Your task to perform on an android device: install app "Venmo" Image 0: 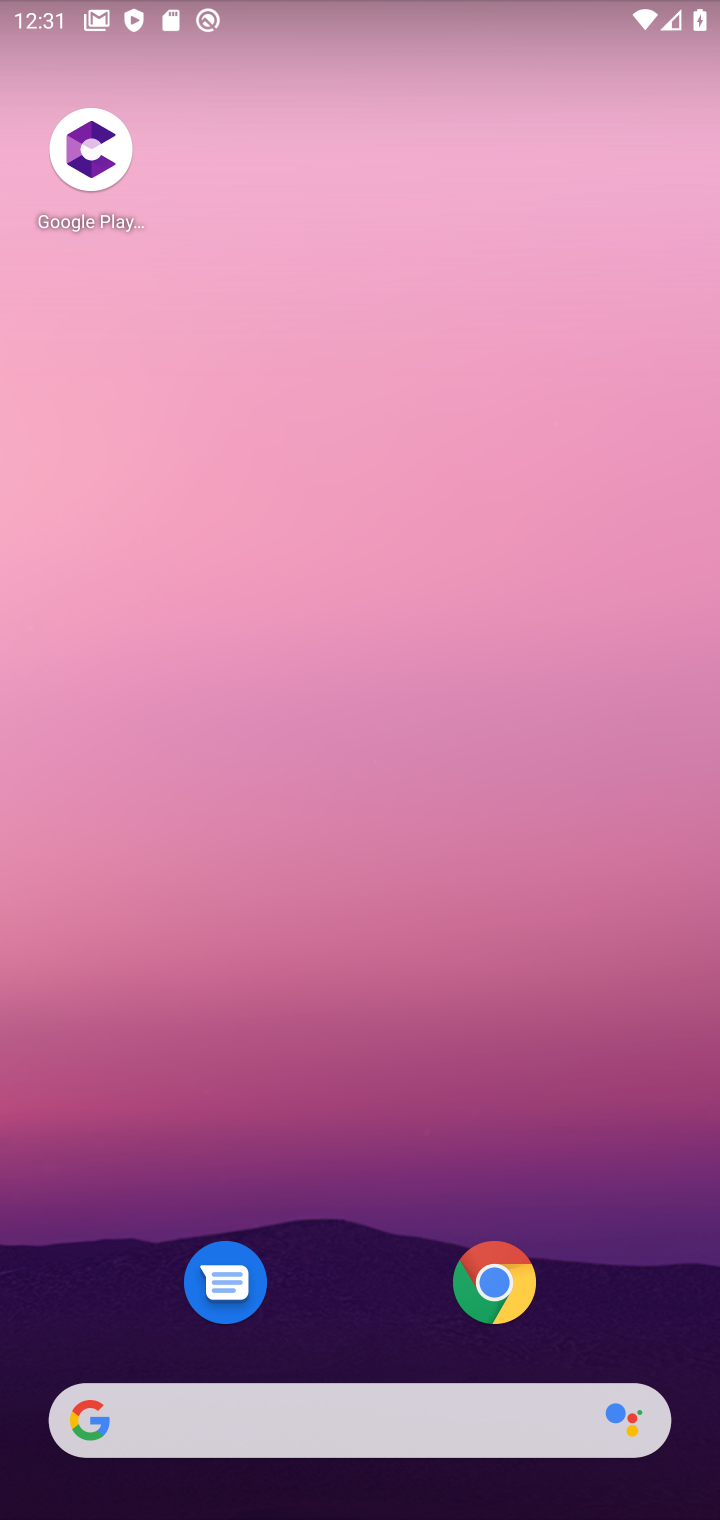
Step 0: drag from (356, 1447) to (284, 418)
Your task to perform on an android device: install app "Venmo" Image 1: 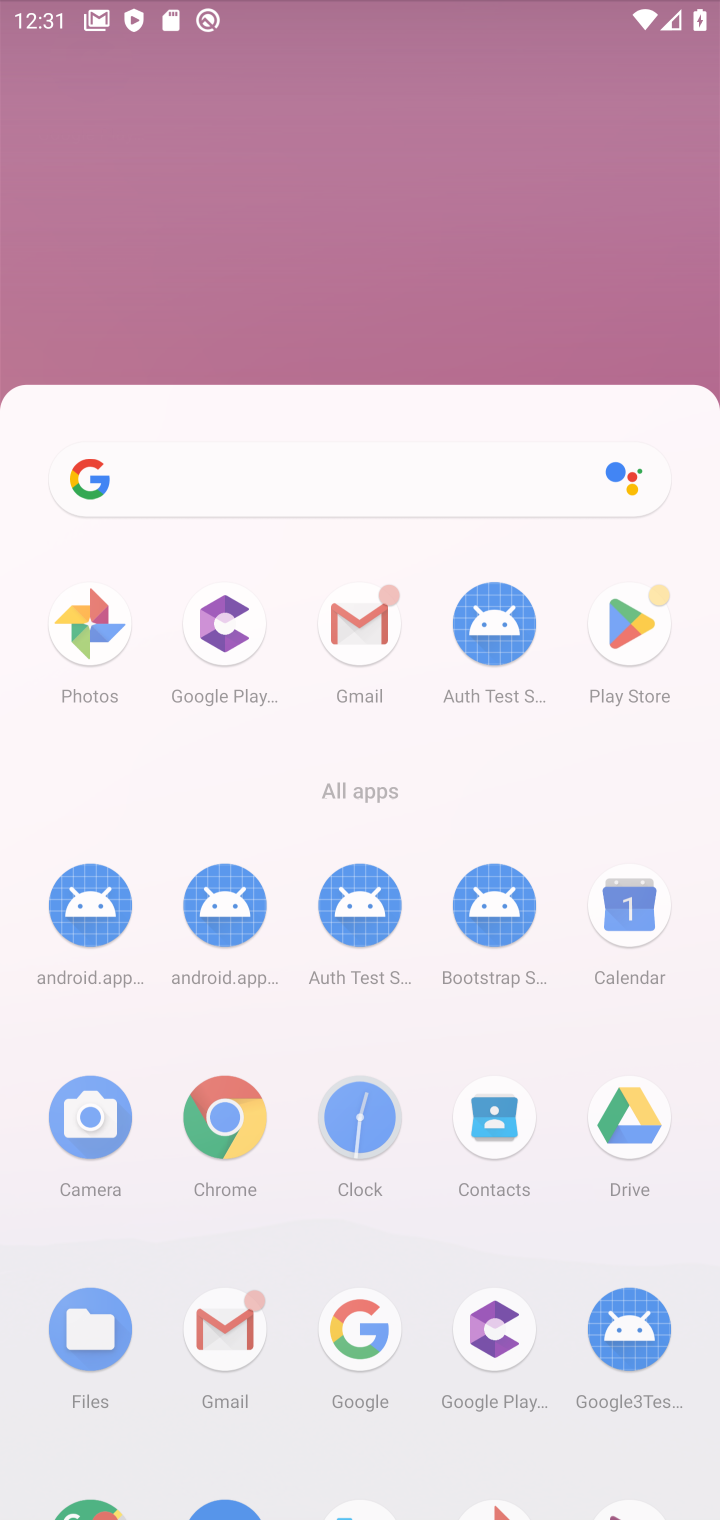
Step 1: drag from (344, 1146) to (278, 416)
Your task to perform on an android device: install app "Venmo" Image 2: 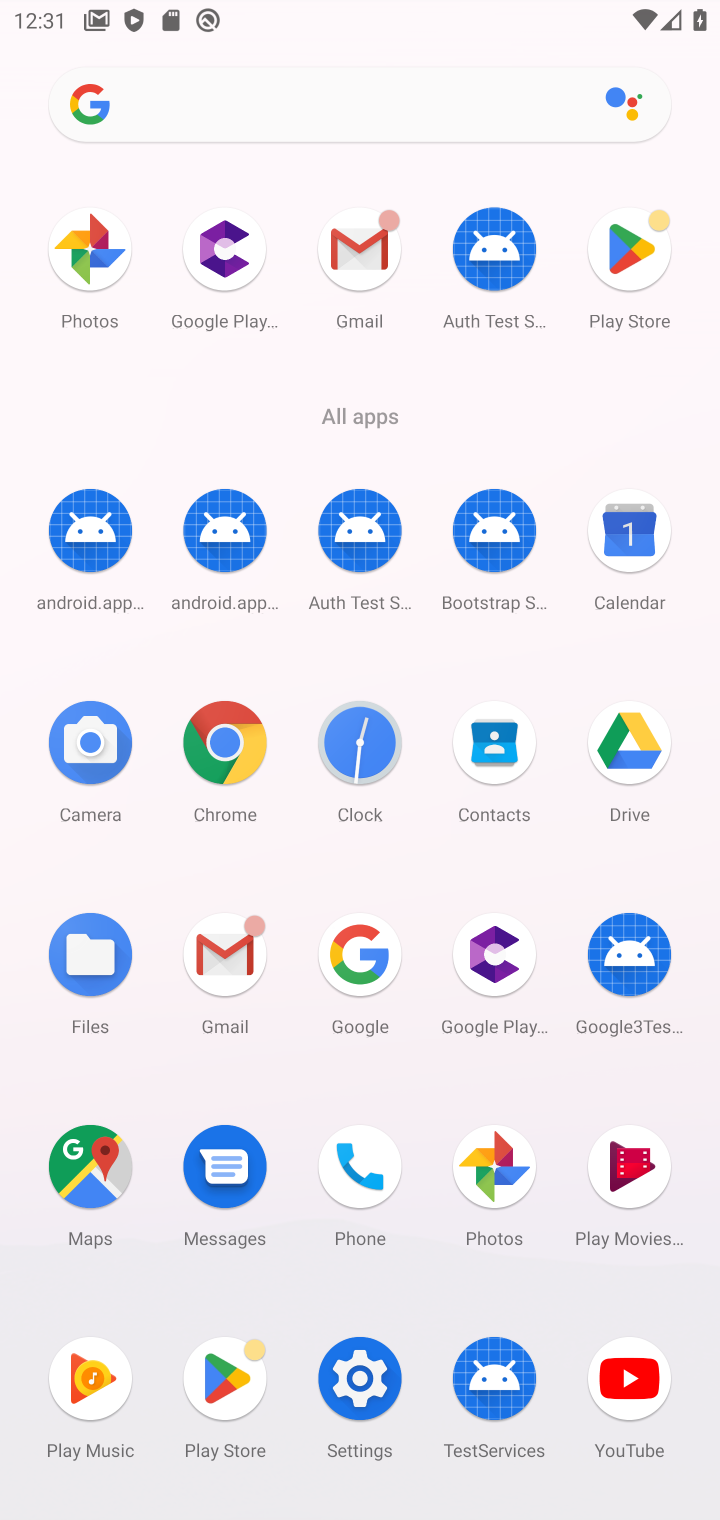
Step 2: click (619, 217)
Your task to perform on an android device: install app "Venmo" Image 3: 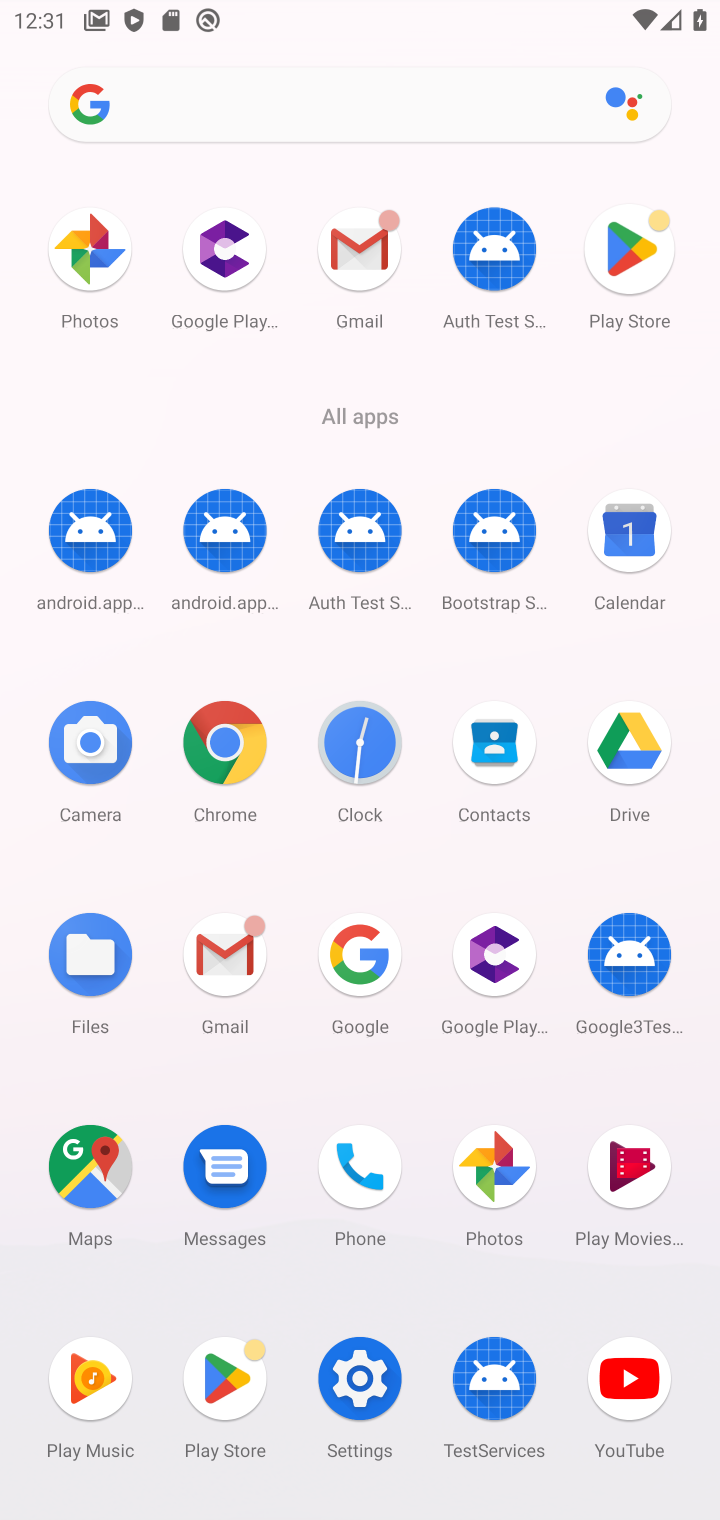
Step 3: click (636, 254)
Your task to perform on an android device: install app "Venmo" Image 4: 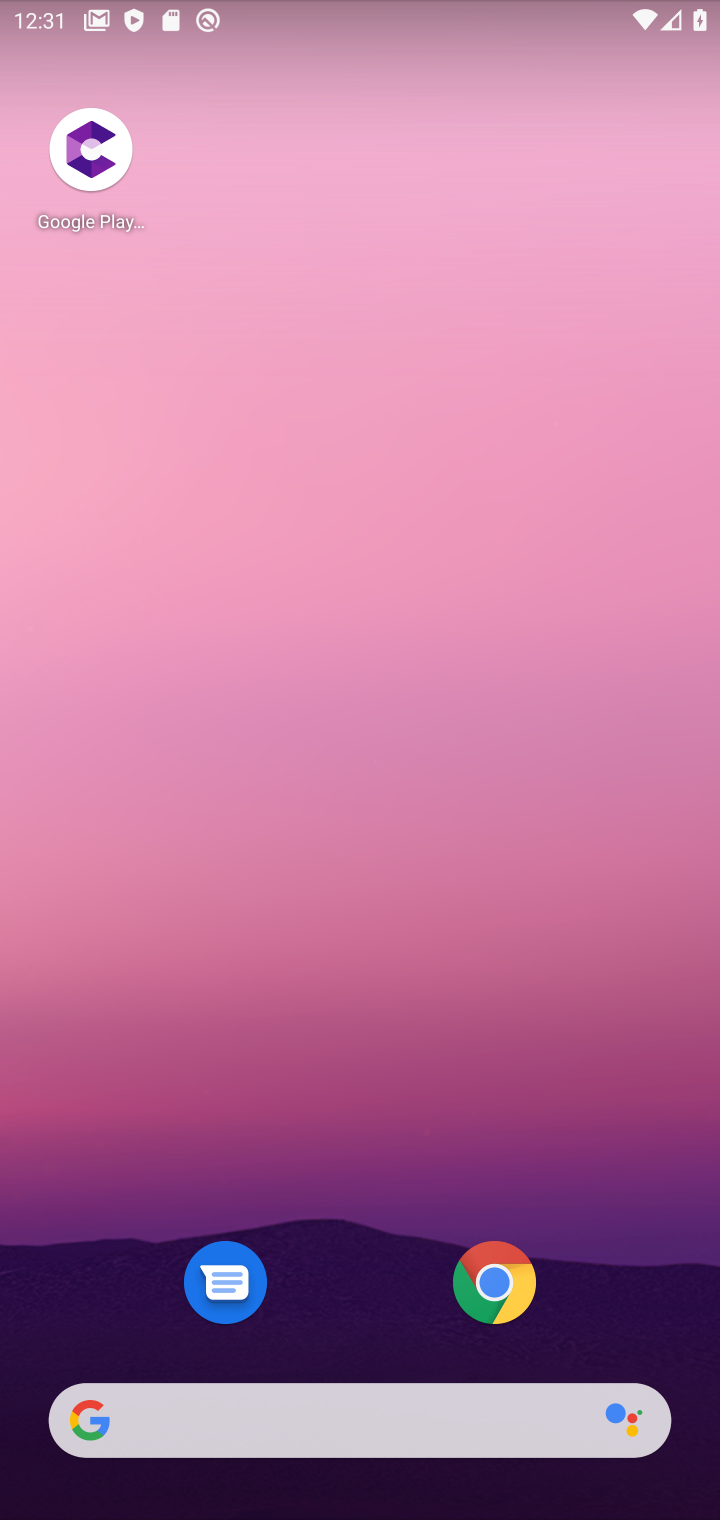
Step 4: click (632, 251)
Your task to perform on an android device: install app "Venmo" Image 5: 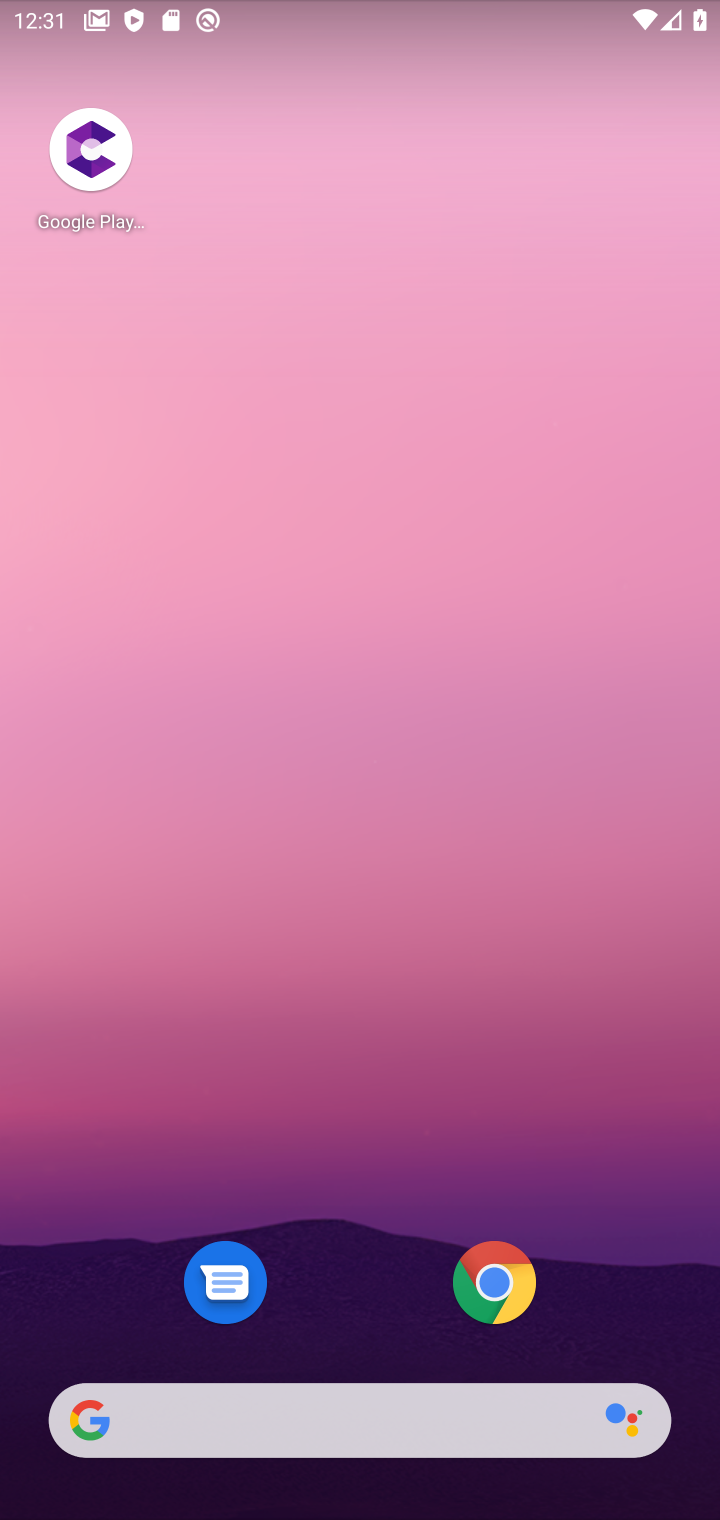
Step 5: drag from (423, 1353) to (198, 240)
Your task to perform on an android device: install app "Venmo" Image 6: 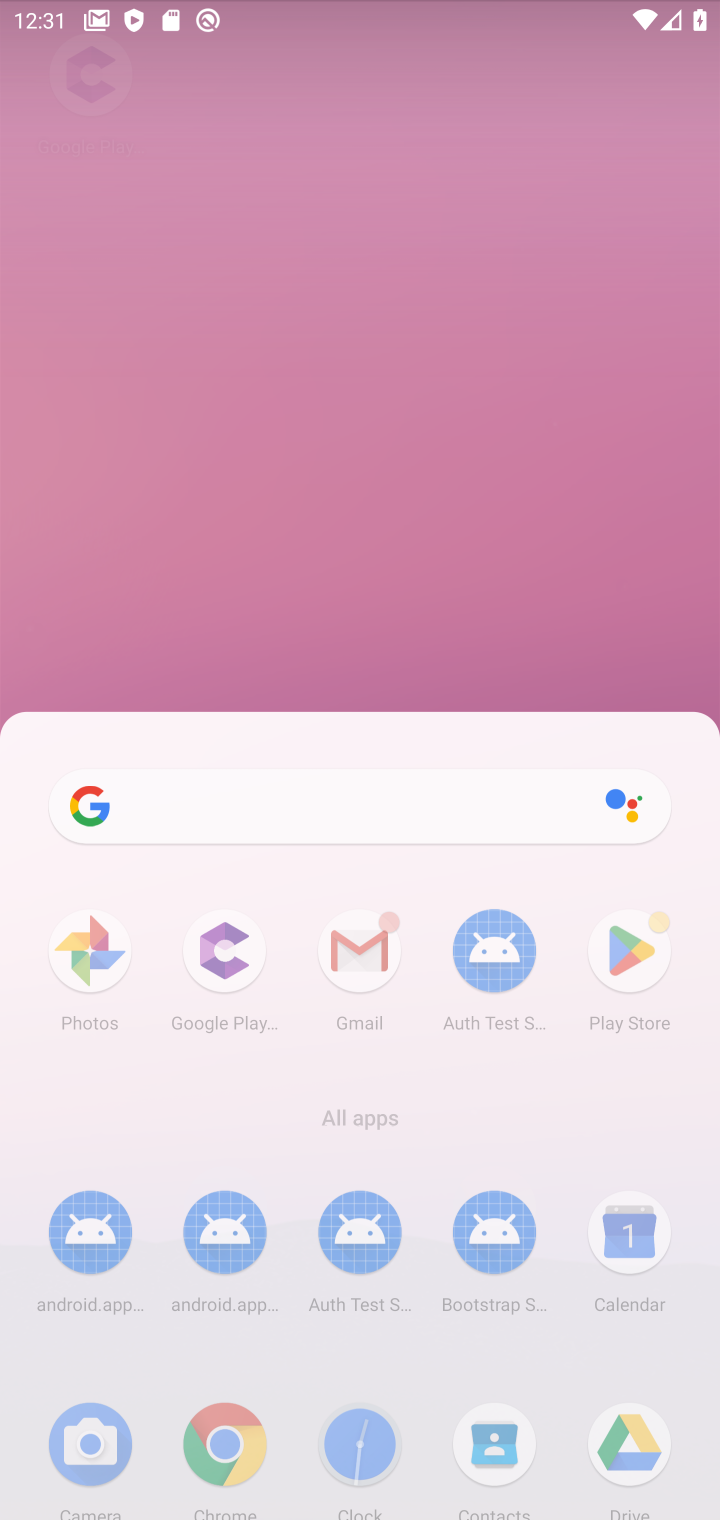
Step 6: drag from (292, 397) to (246, 319)
Your task to perform on an android device: install app "Venmo" Image 7: 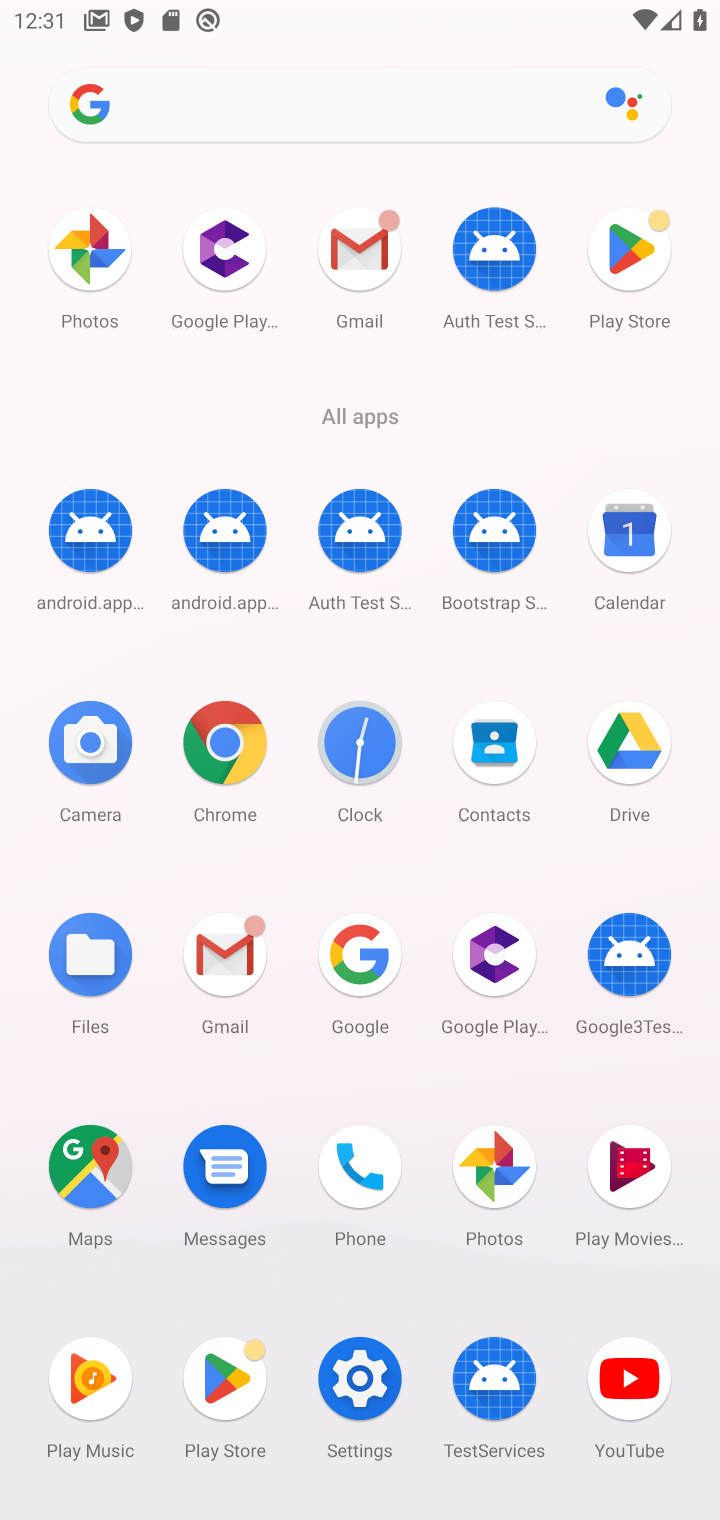
Step 7: drag from (312, 786) to (247, 334)
Your task to perform on an android device: install app "Venmo" Image 8: 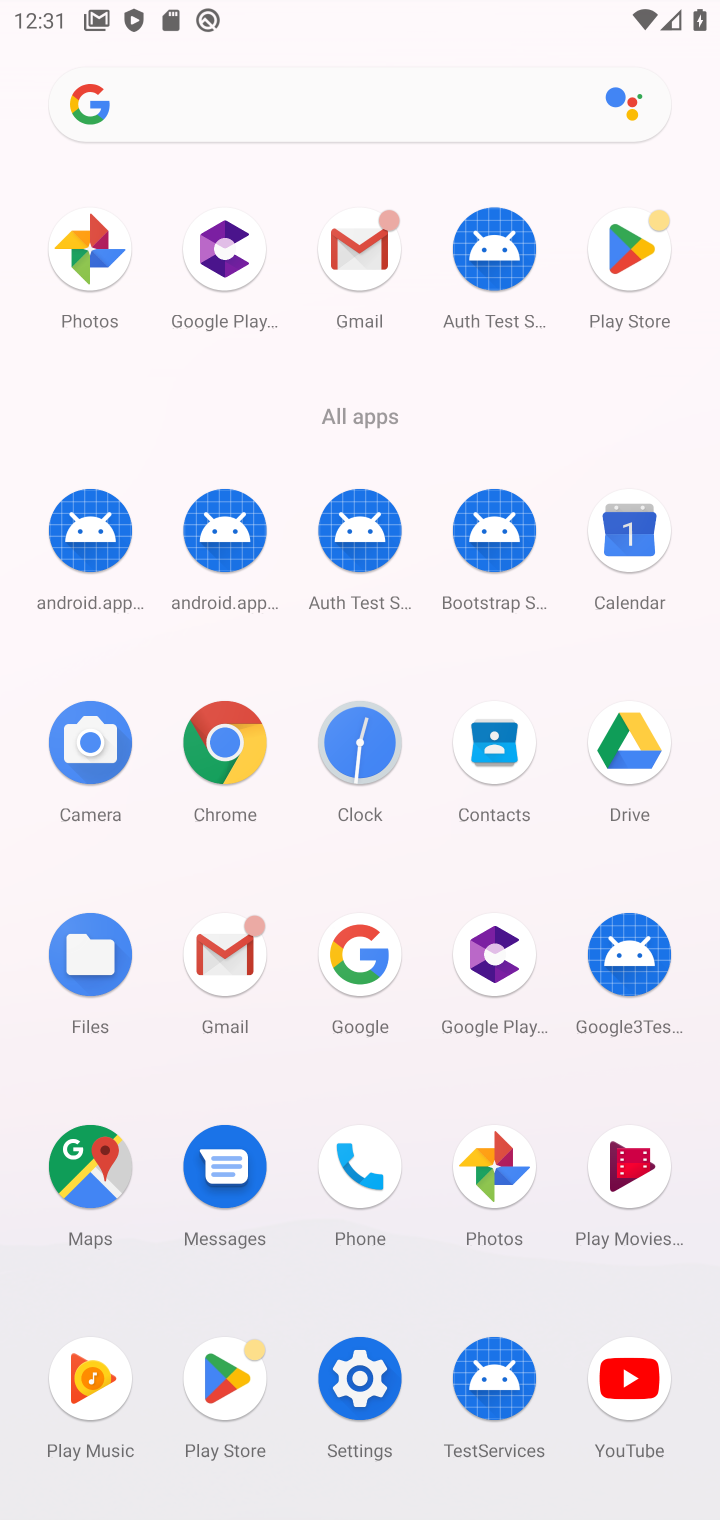
Step 8: drag from (338, 787) to (303, 452)
Your task to perform on an android device: install app "Venmo" Image 9: 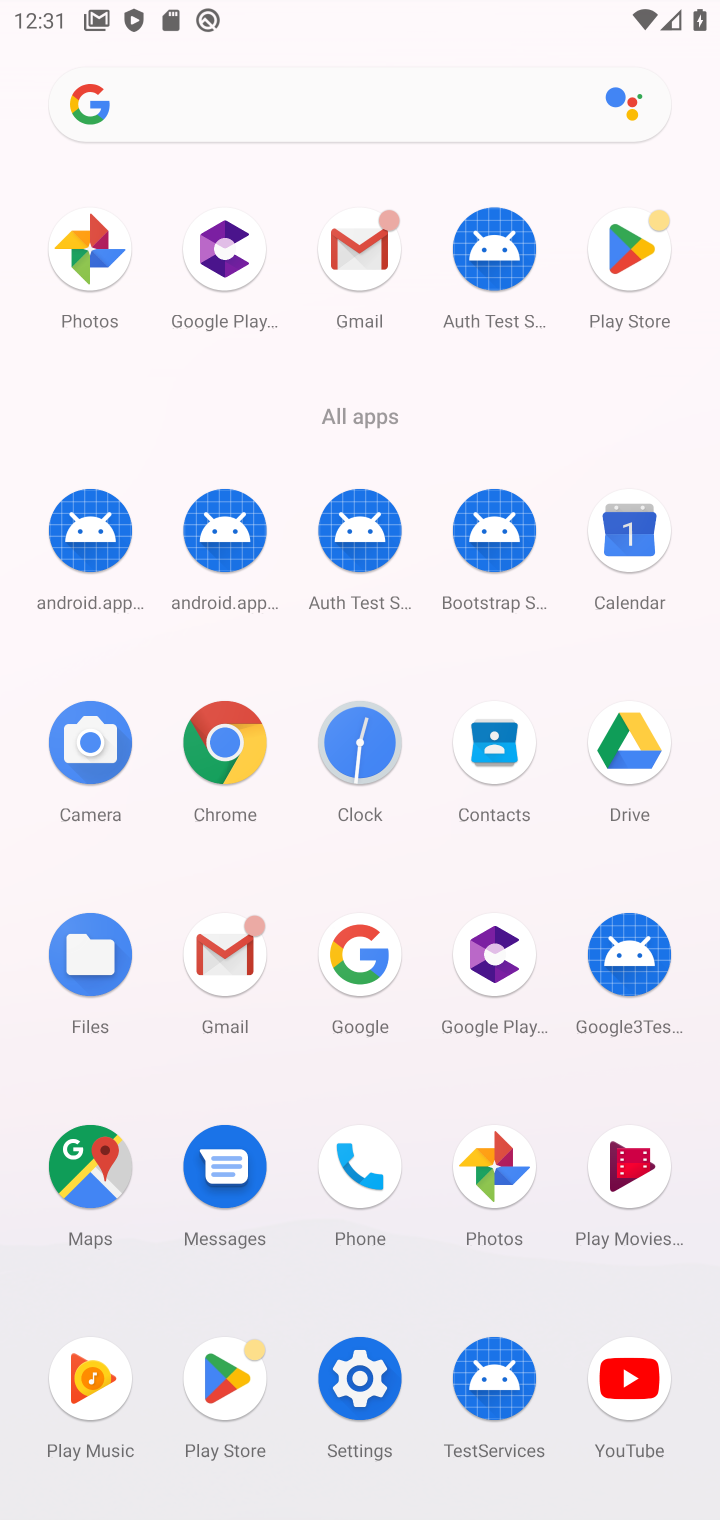
Step 9: click (619, 238)
Your task to perform on an android device: install app "Venmo" Image 10: 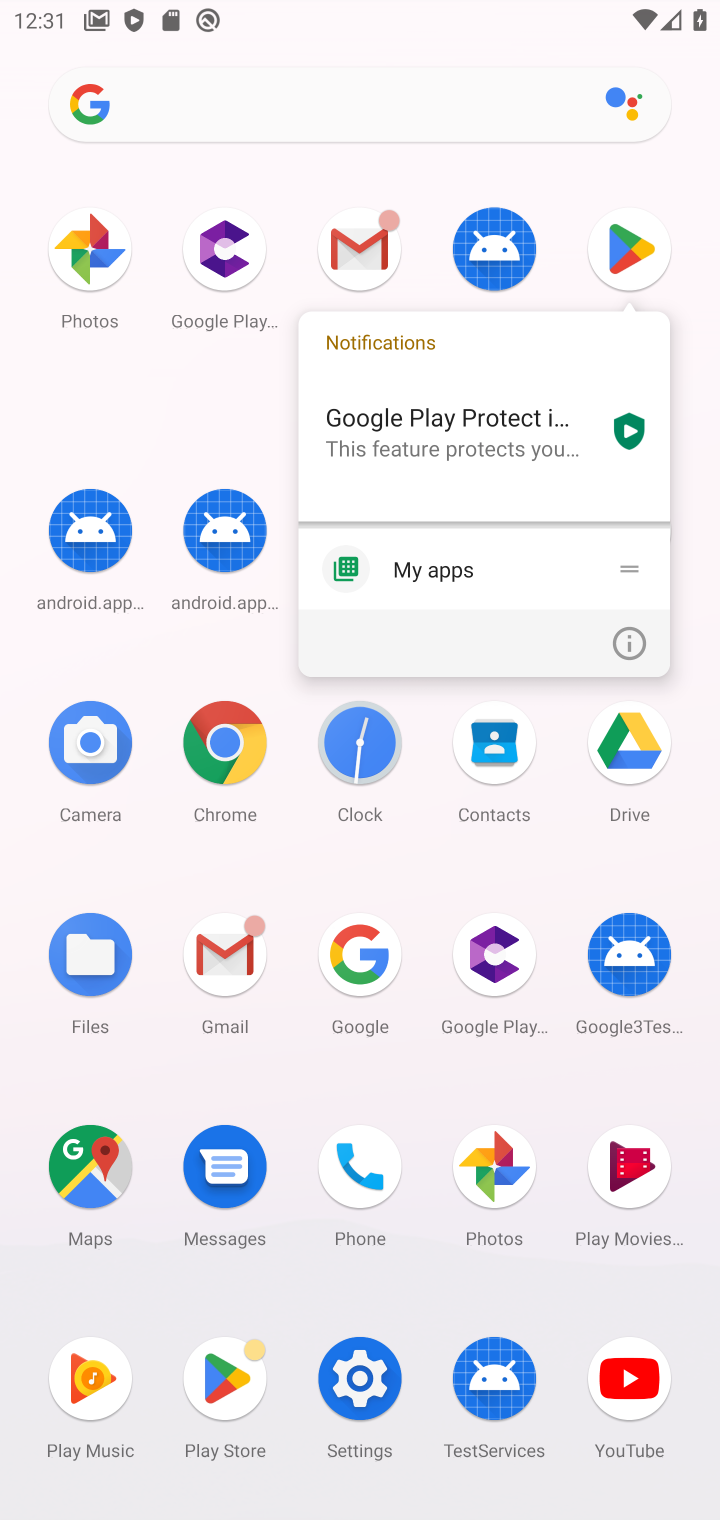
Step 10: click (619, 242)
Your task to perform on an android device: install app "Venmo" Image 11: 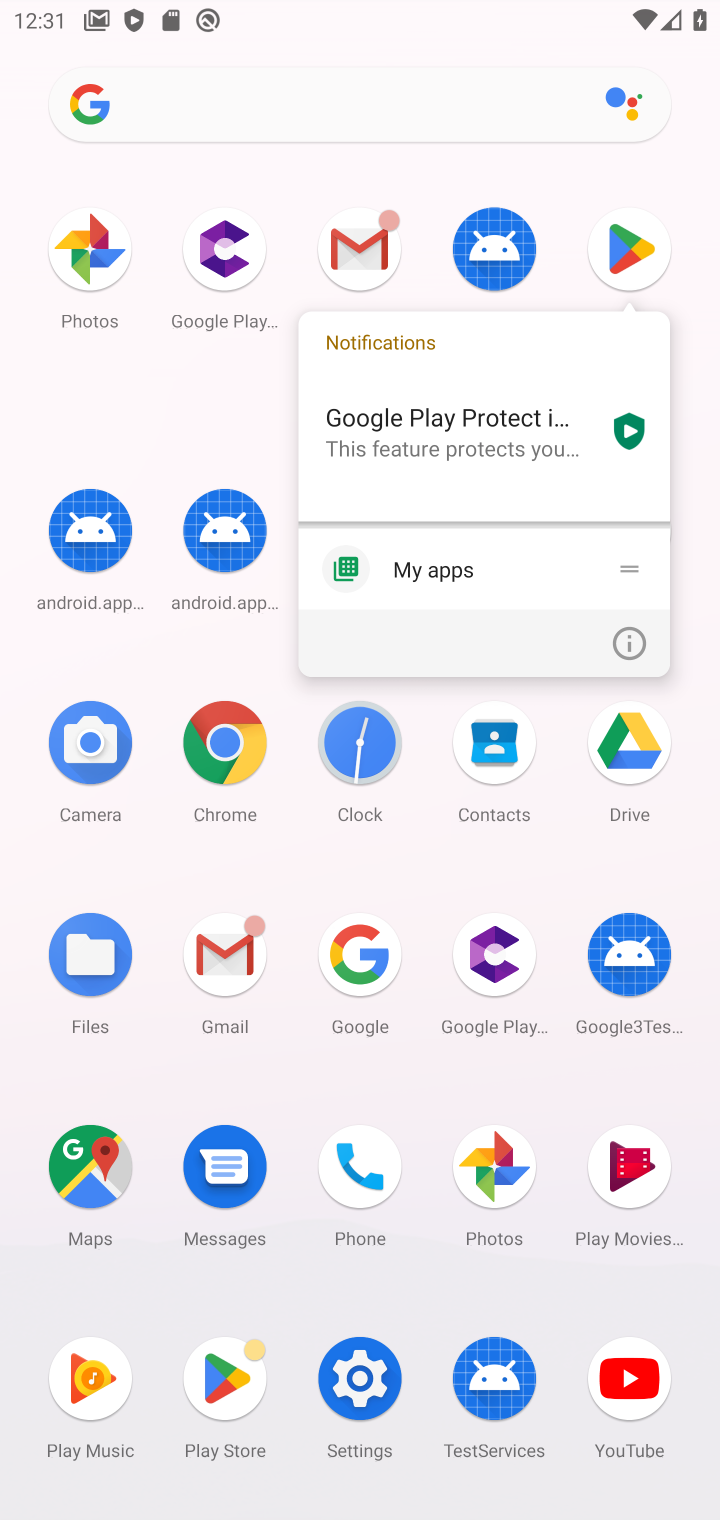
Step 11: click (621, 244)
Your task to perform on an android device: install app "Venmo" Image 12: 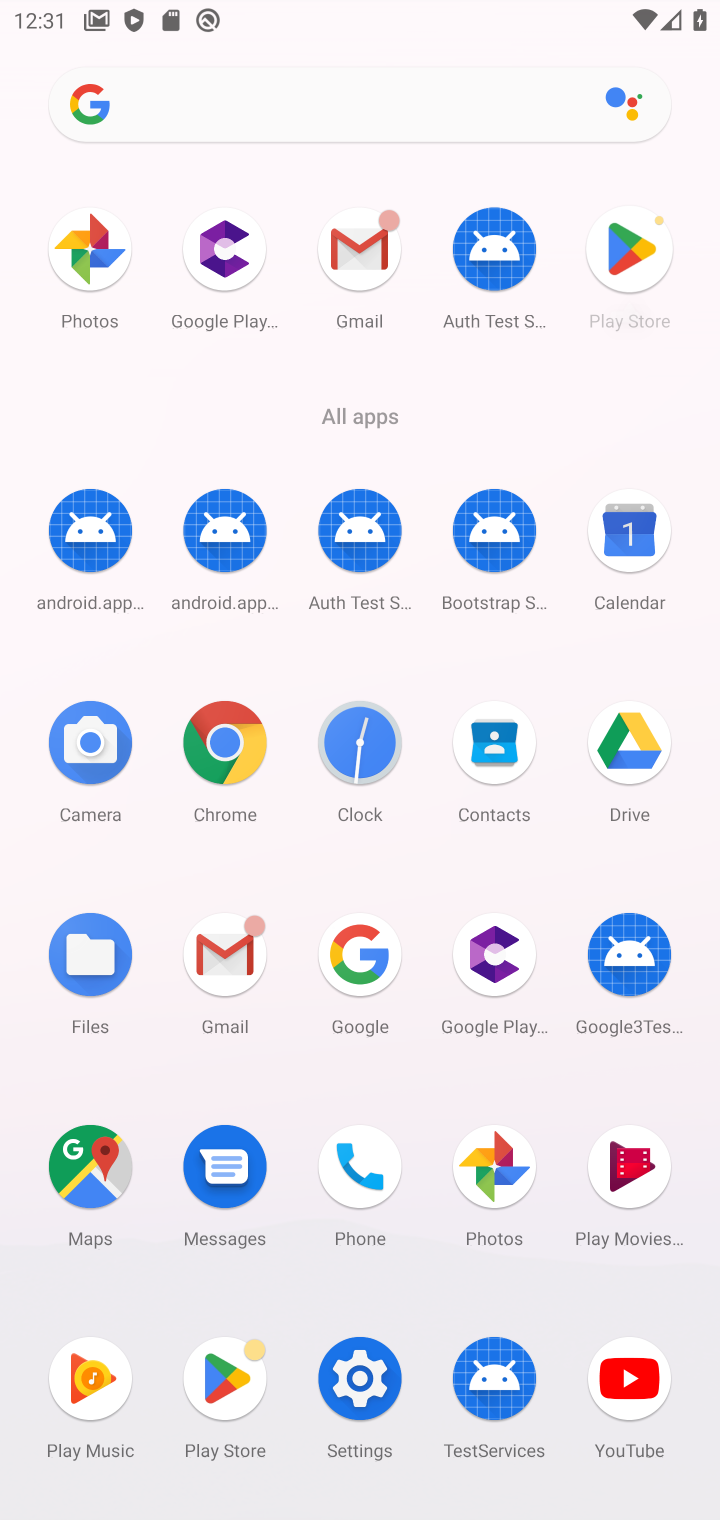
Step 12: click (623, 248)
Your task to perform on an android device: install app "Venmo" Image 13: 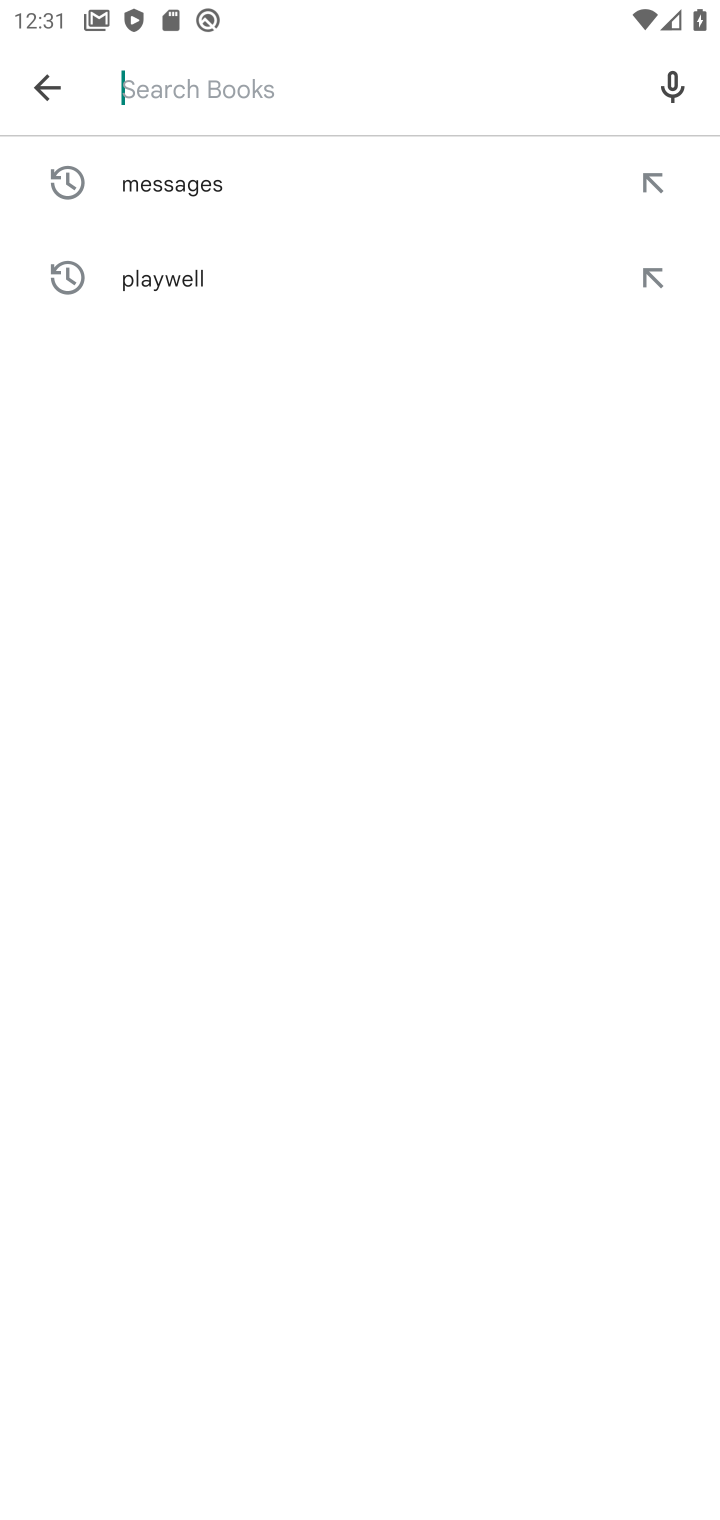
Step 13: click (632, 265)
Your task to perform on an android device: install app "Venmo" Image 14: 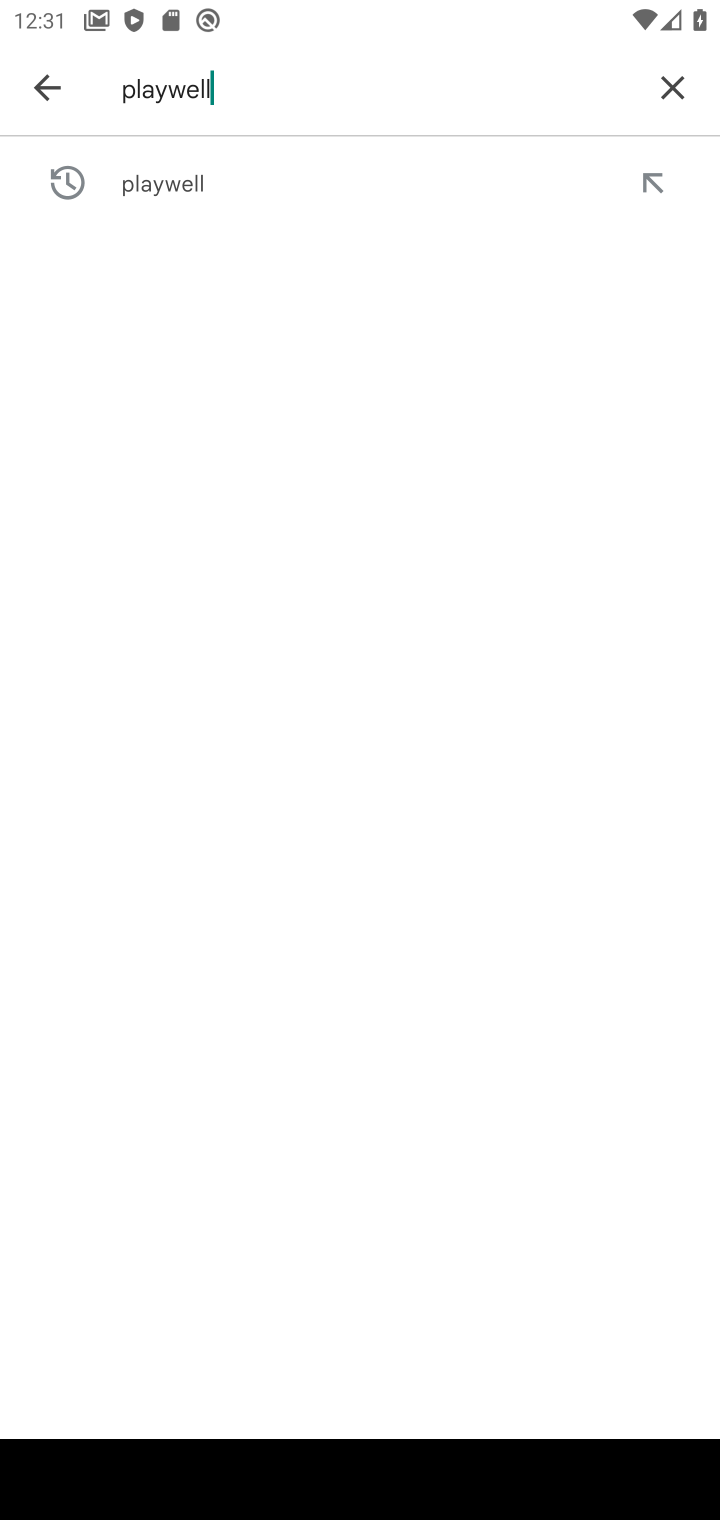
Step 14: type "Venmo"
Your task to perform on an android device: install app "Venmo" Image 15: 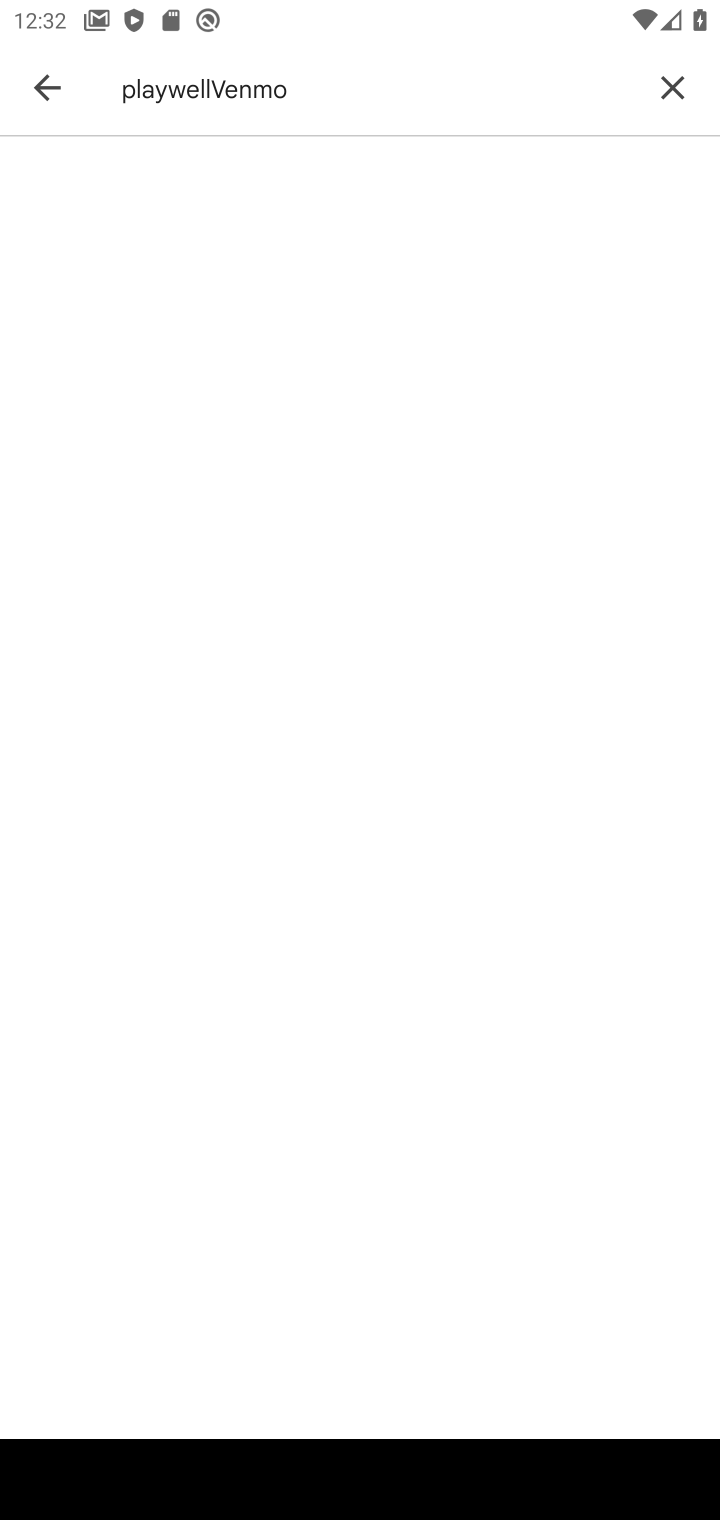
Step 15: click (674, 73)
Your task to perform on an android device: install app "Venmo" Image 16: 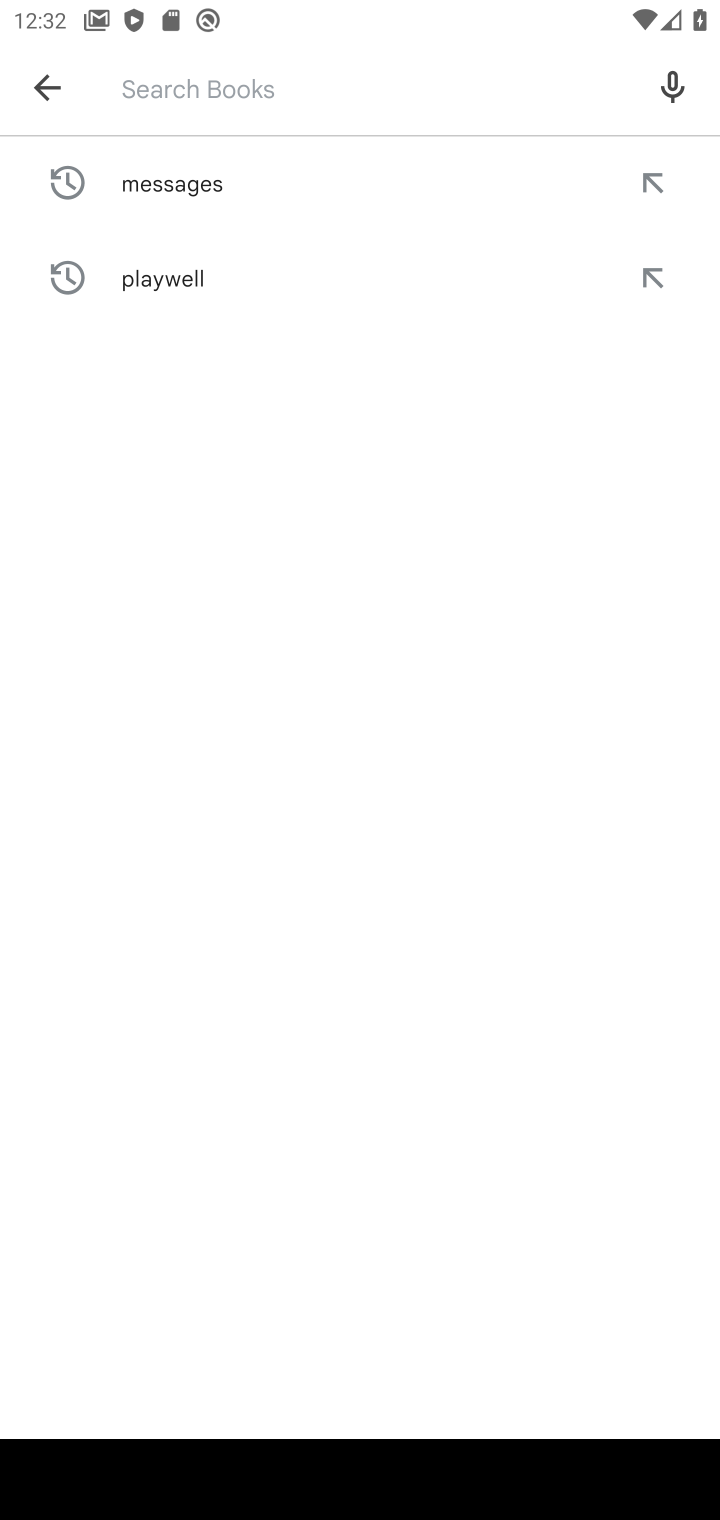
Step 16: type "Venmo"
Your task to perform on an android device: install app "Venmo" Image 17: 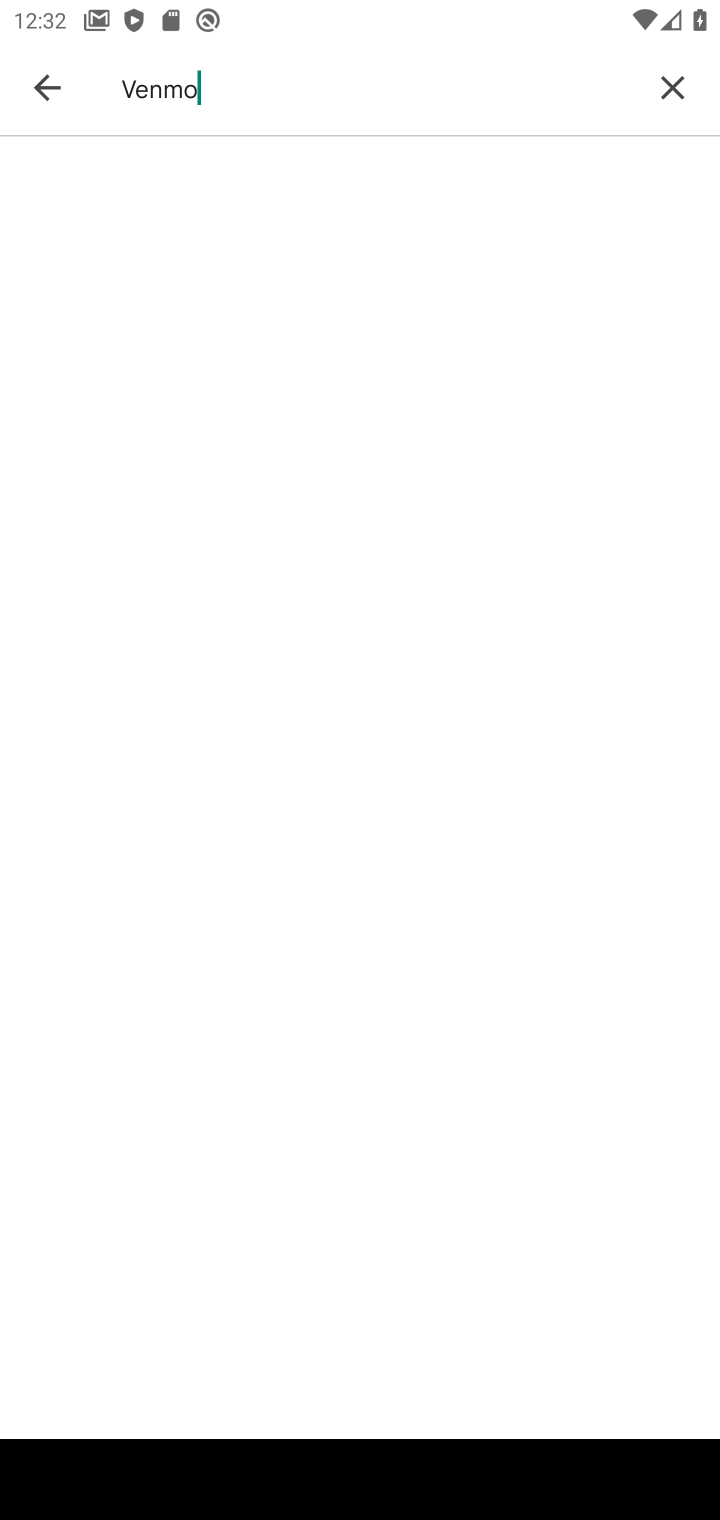
Step 17: click (187, 112)
Your task to perform on an android device: install app "Venmo" Image 18: 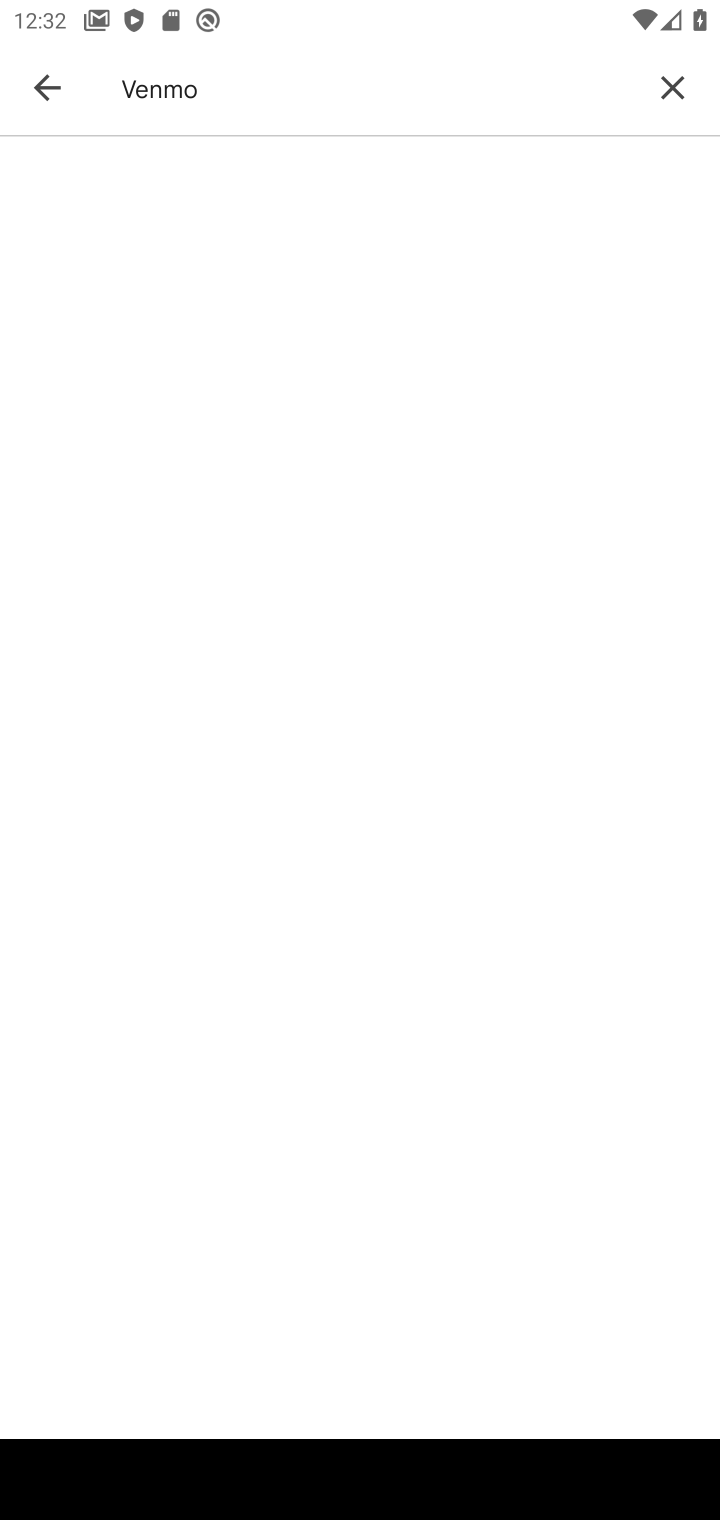
Step 18: click (184, 109)
Your task to perform on an android device: install app "Venmo" Image 19: 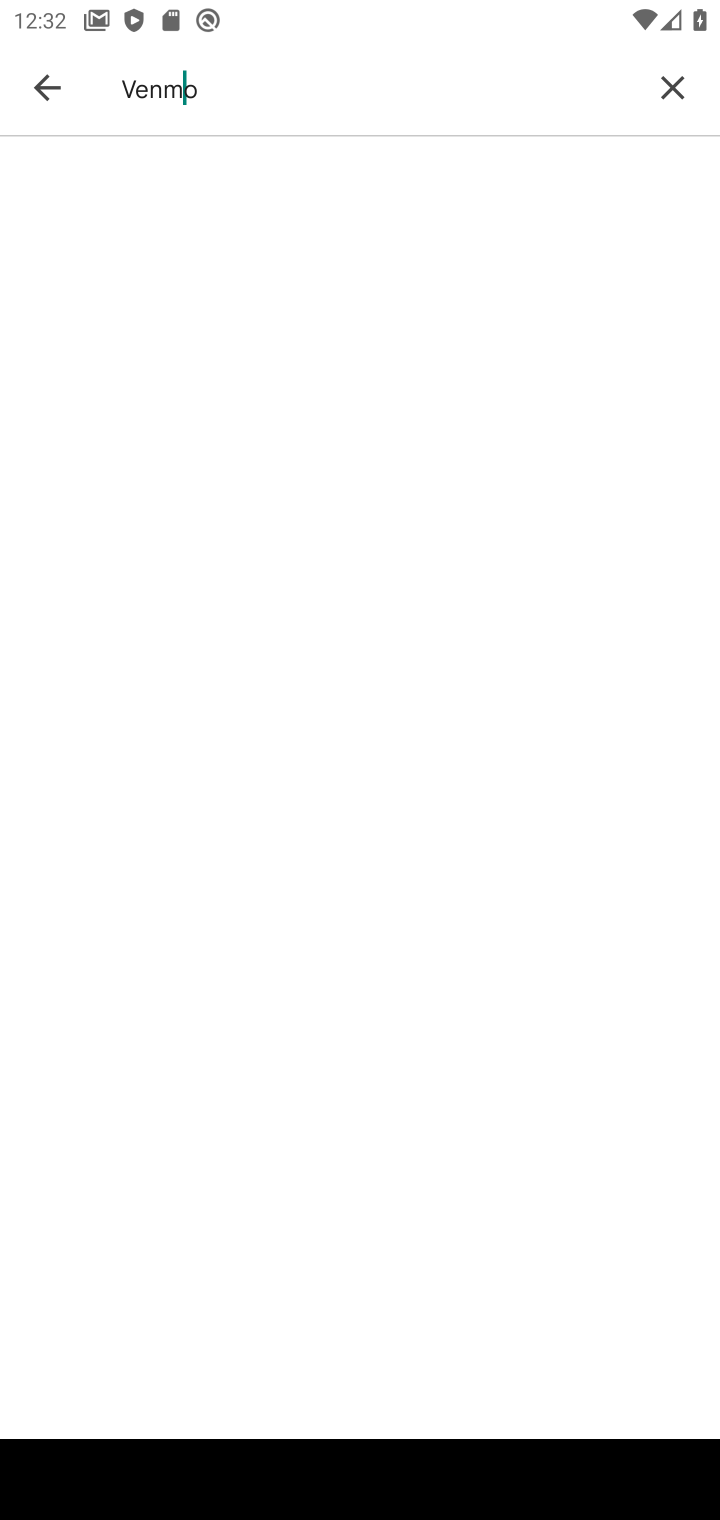
Step 19: click (184, 107)
Your task to perform on an android device: install app "Venmo" Image 20: 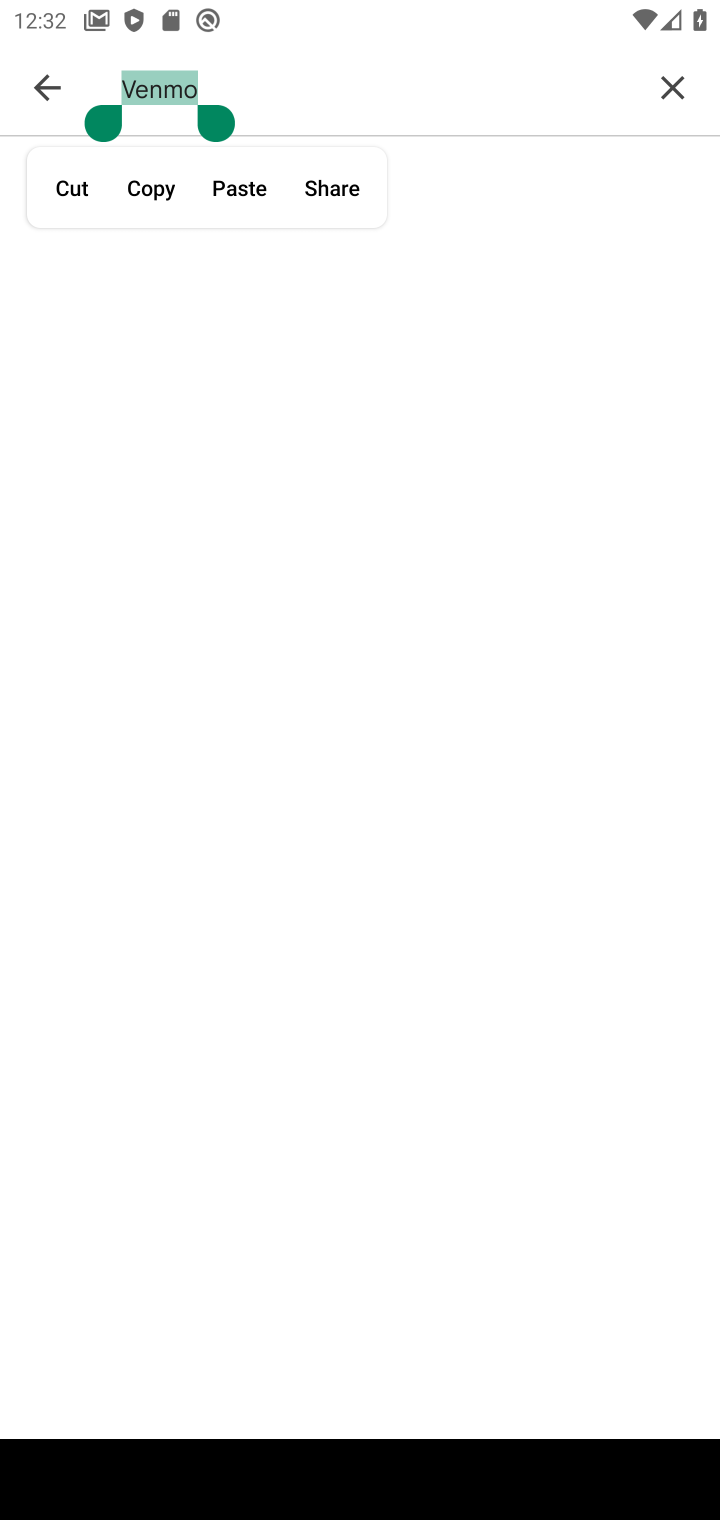
Step 20: click (234, 99)
Your task to perform on an android device: install app "Venmo" Image 21: 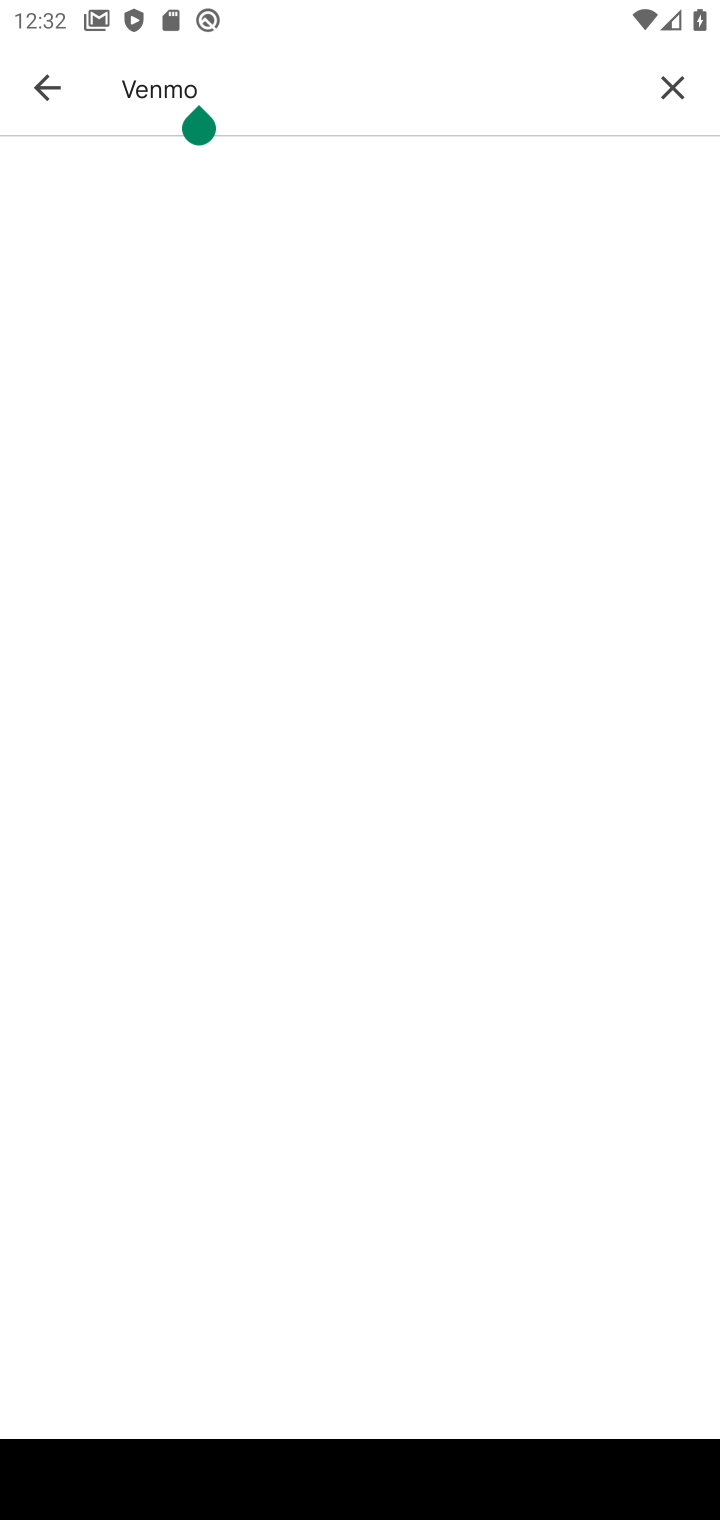
Step 21: click (671, 81)
Your task to perform on an android device: install app "Venmo" Image 22: 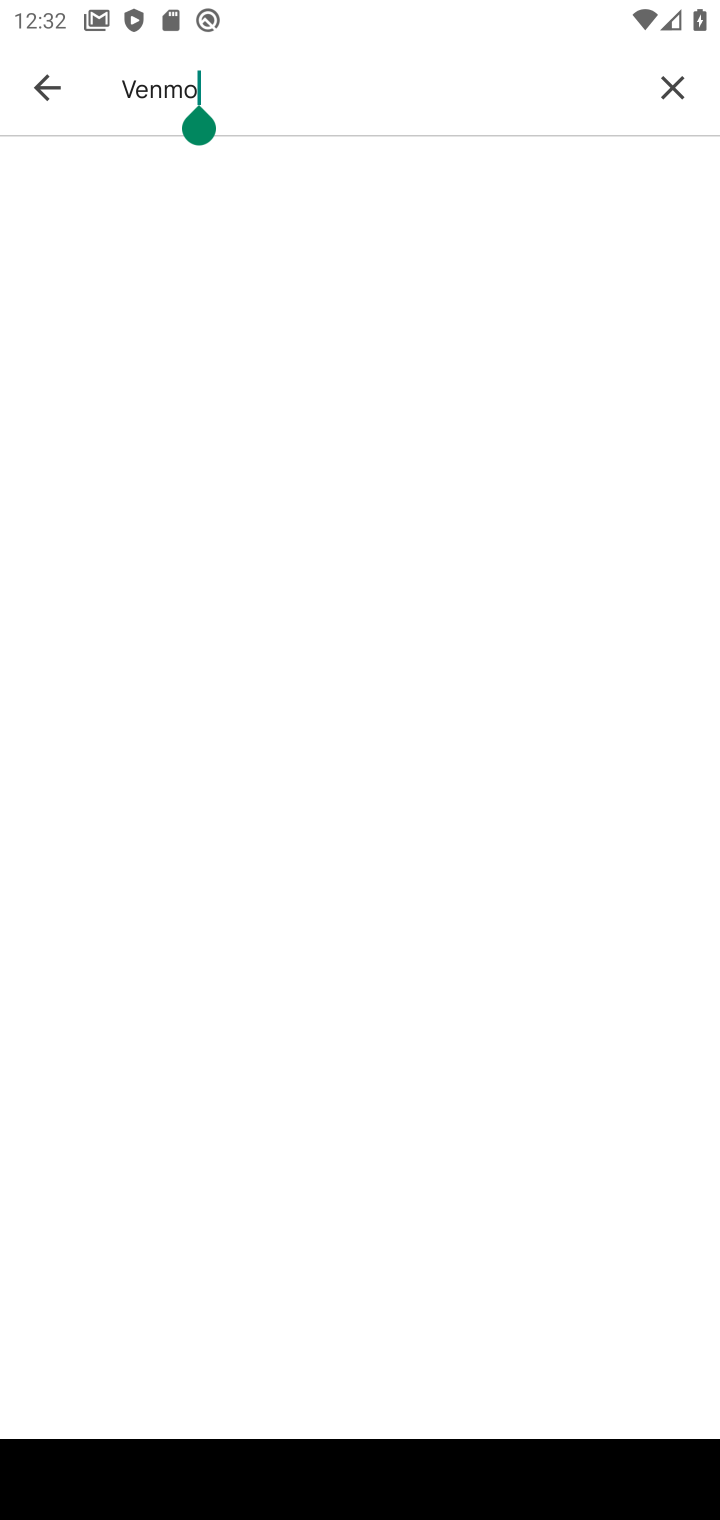
Step 22: click (677, 87)
Your task to perform on an android device: install app "Venmo" Image 23: 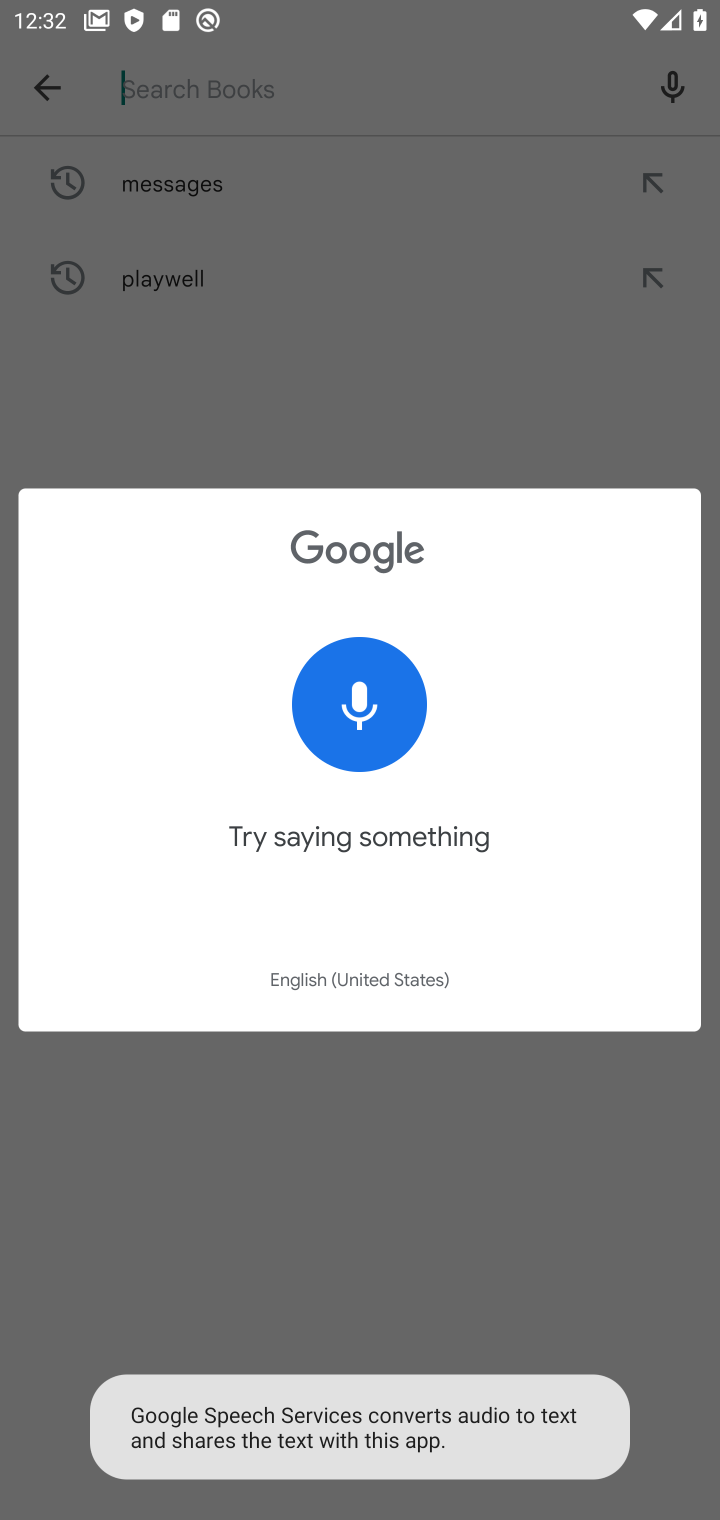
Step 23: click (34, 84)
Your task to perform on an android device: install app "Venmo" Image 24: 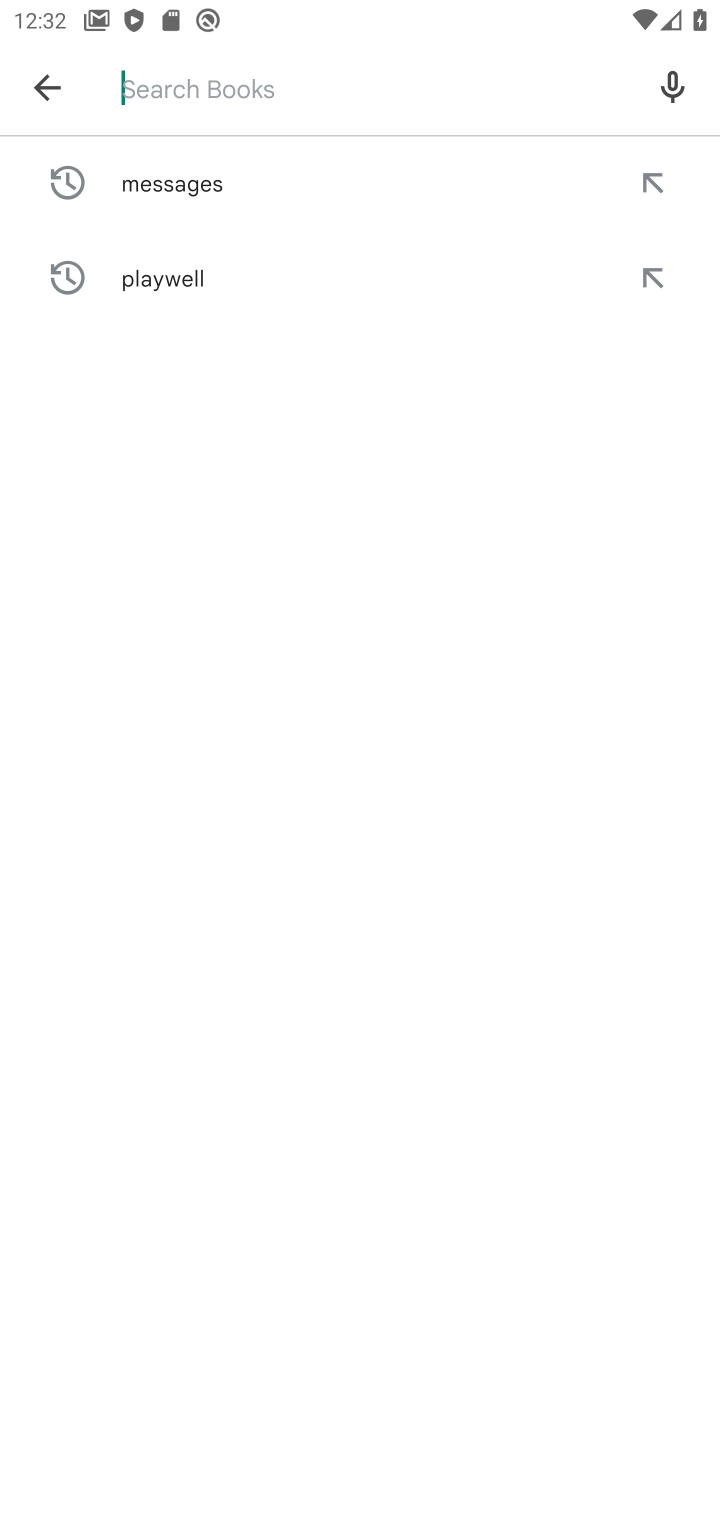
Step 24: drag from (106, 129) to (434, 363)
Your task to perform on an android device: install app "Venmo" Image 25: 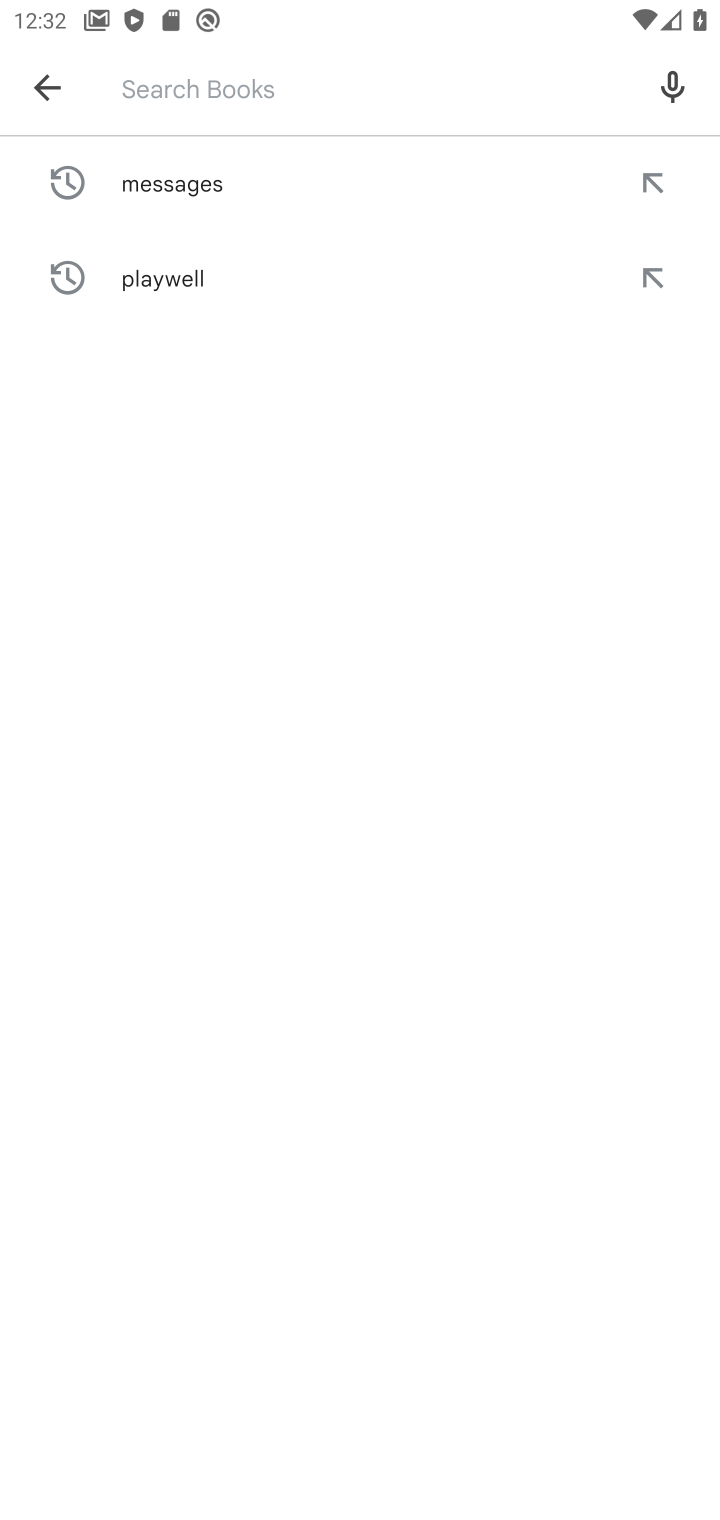
Step 25: type "Venmo"
Your task to perform on an android device: install app "Venmo" Image 26: 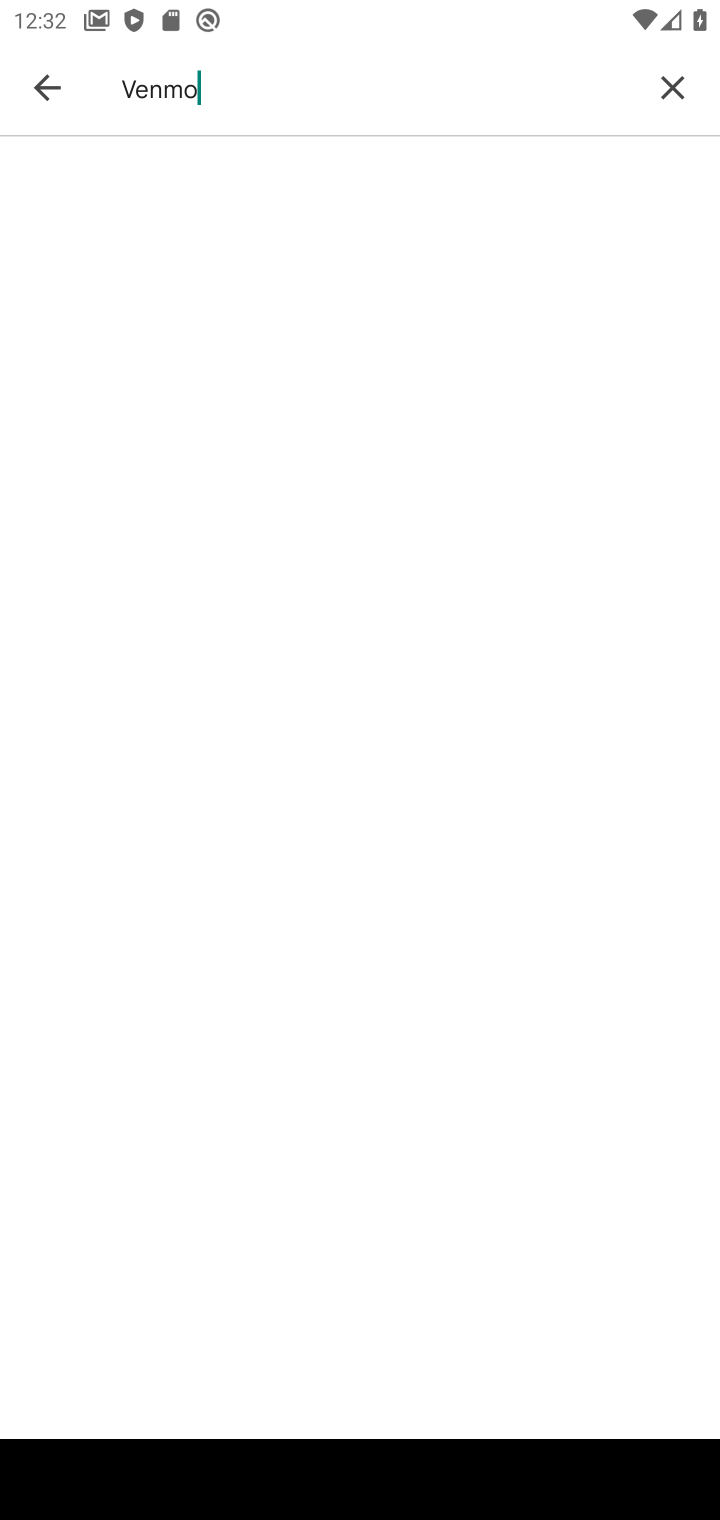
Step 26: click (50, 92)
Your task to perform on an android device: install app "Venmo" Image 27: 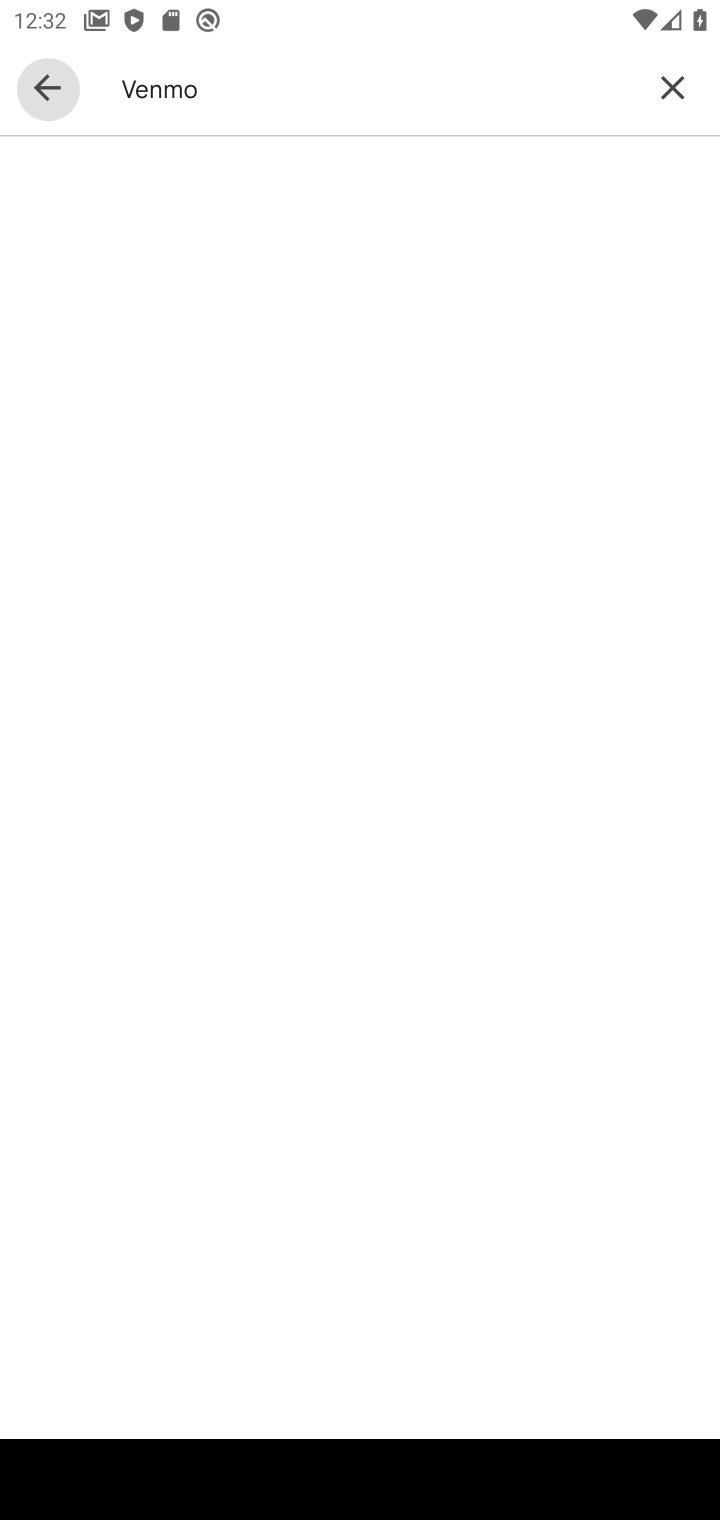
Step 27: click (56, 88)
Your task to perform on an android device: install app "Venmo" Image 28: 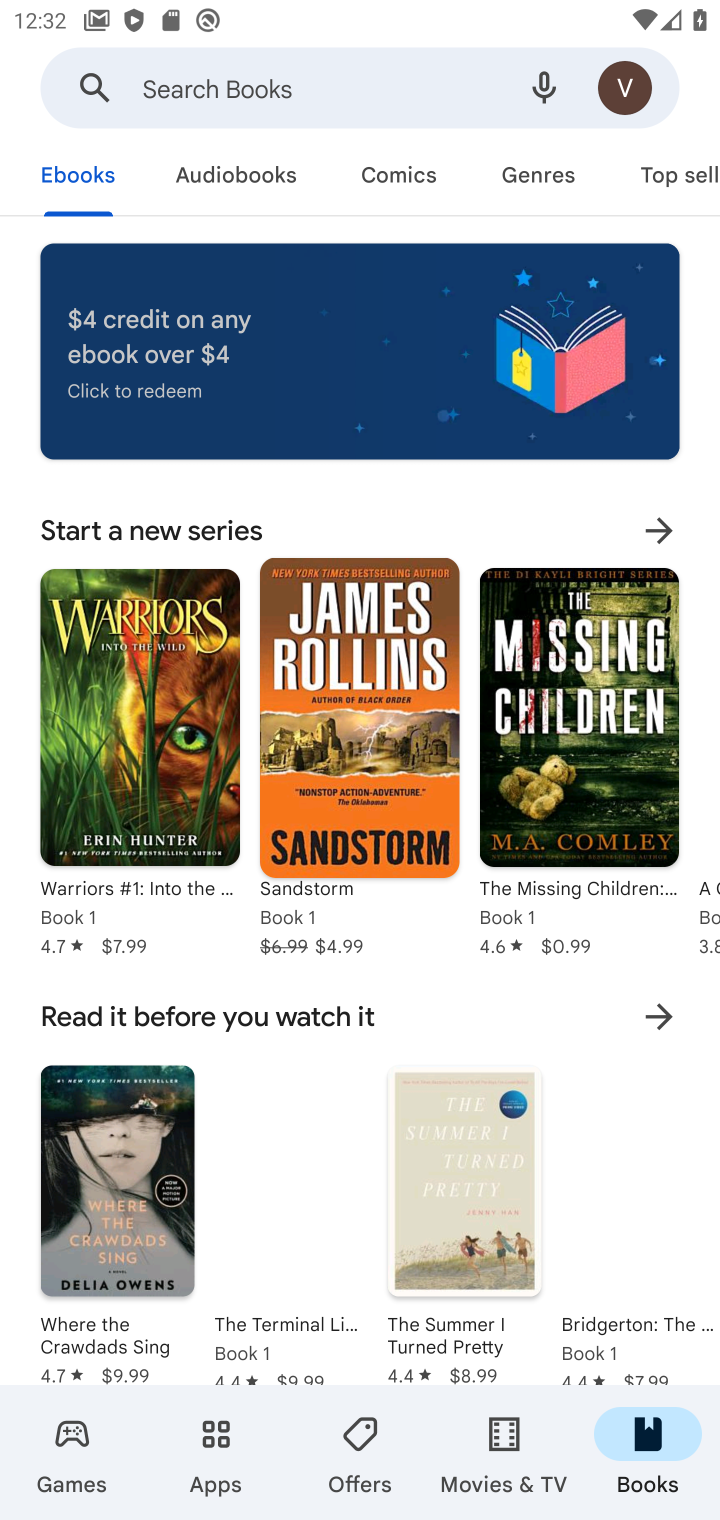
Step 28: click (180, 73)
Your task to perform on an android device: install app "Venmo" Image 29: 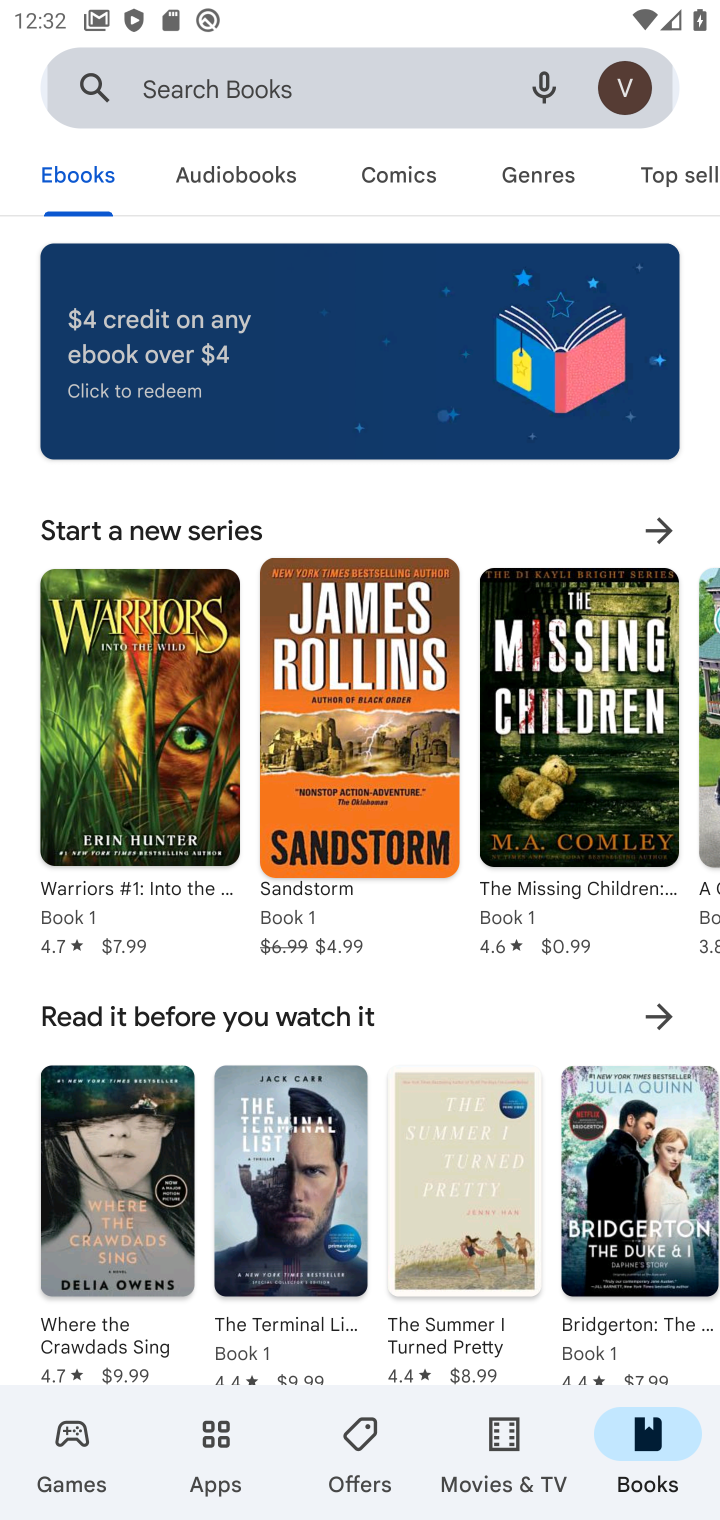
Step 29: click (202, 98)
Your task to perform on an android device: install app "Venmo" Image 30: 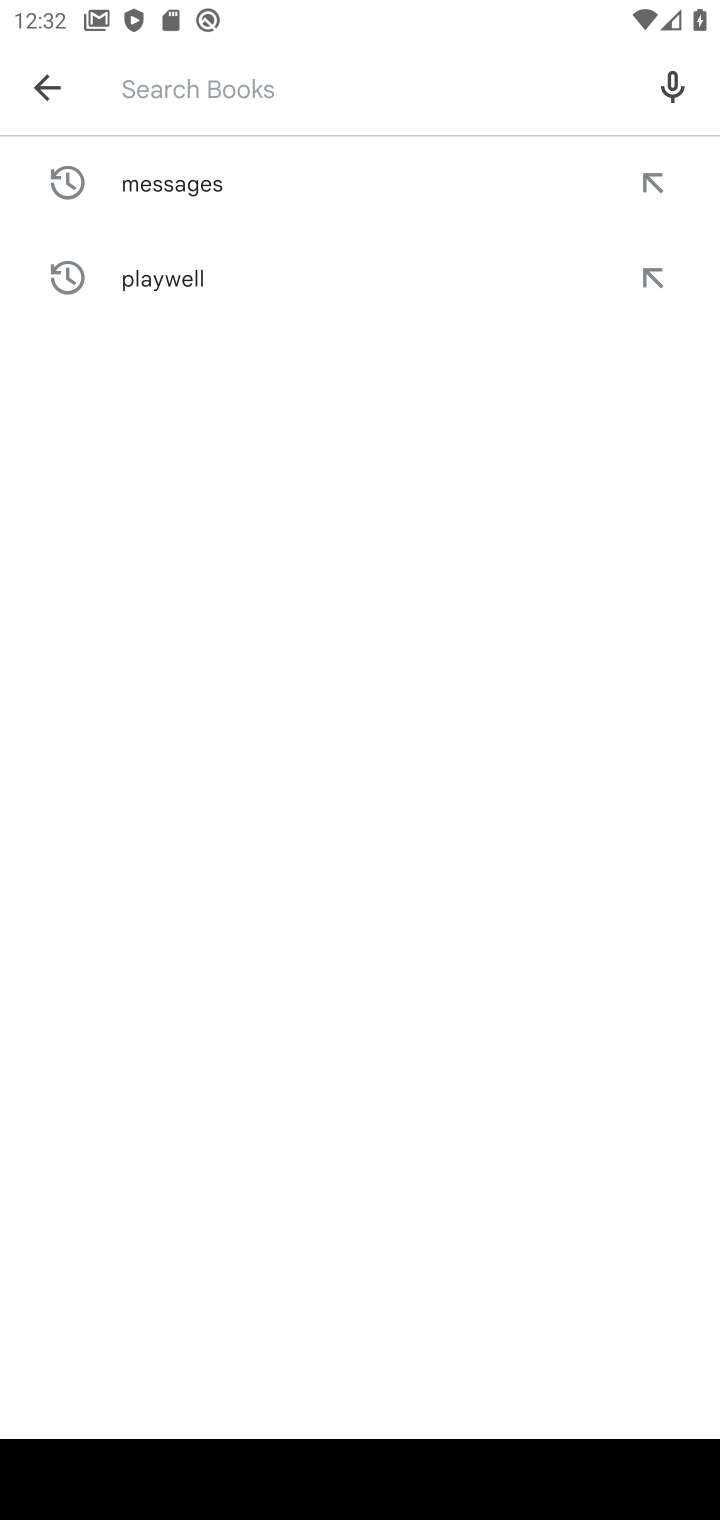
Step 30: type "Venmo"
Your task to perform on an android device: install app "Venmo" Image 31: 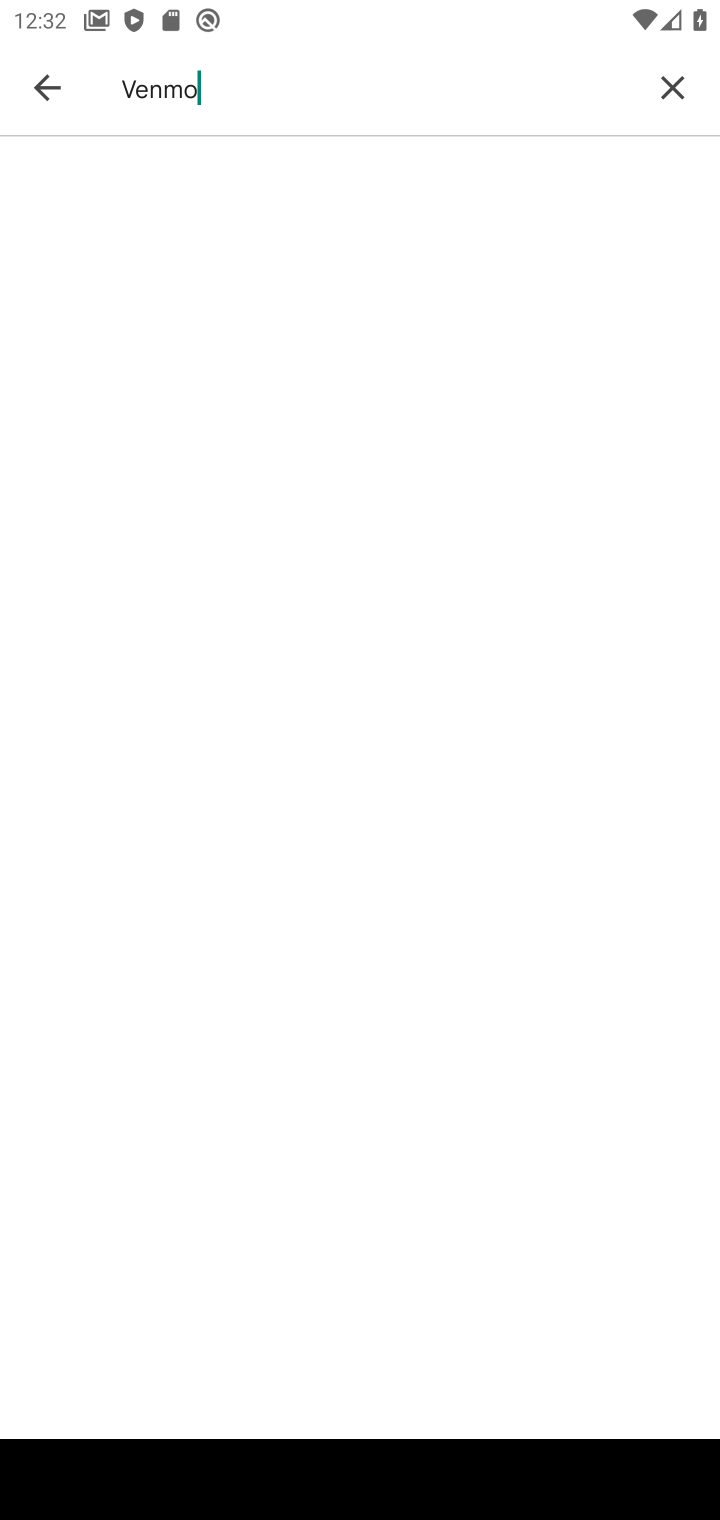
Step 31: click (248, 67)
Your task to perform on an android device: install app "Venmo" Image 32: 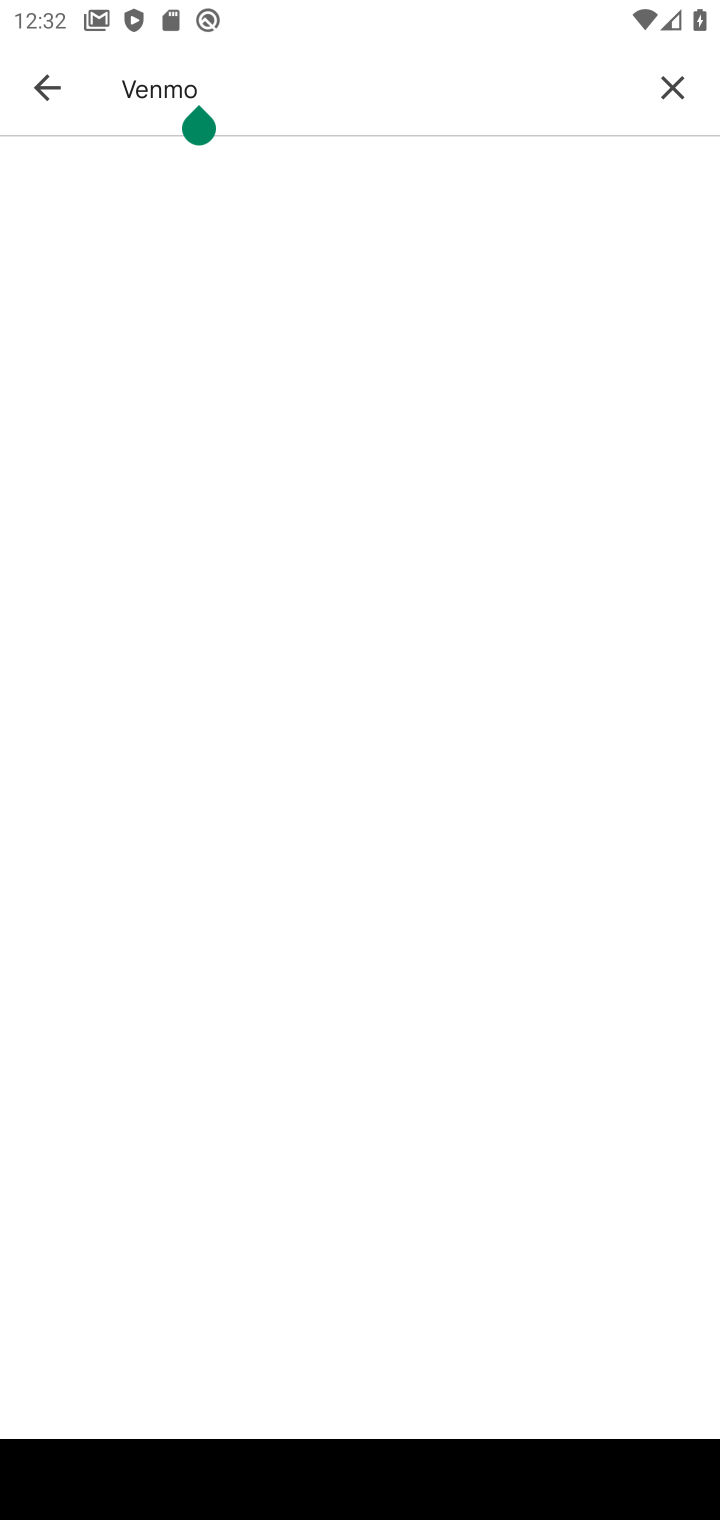
Step 32: task complete